Your task to perform on an android device: toggle improve location accuracy Image 0: 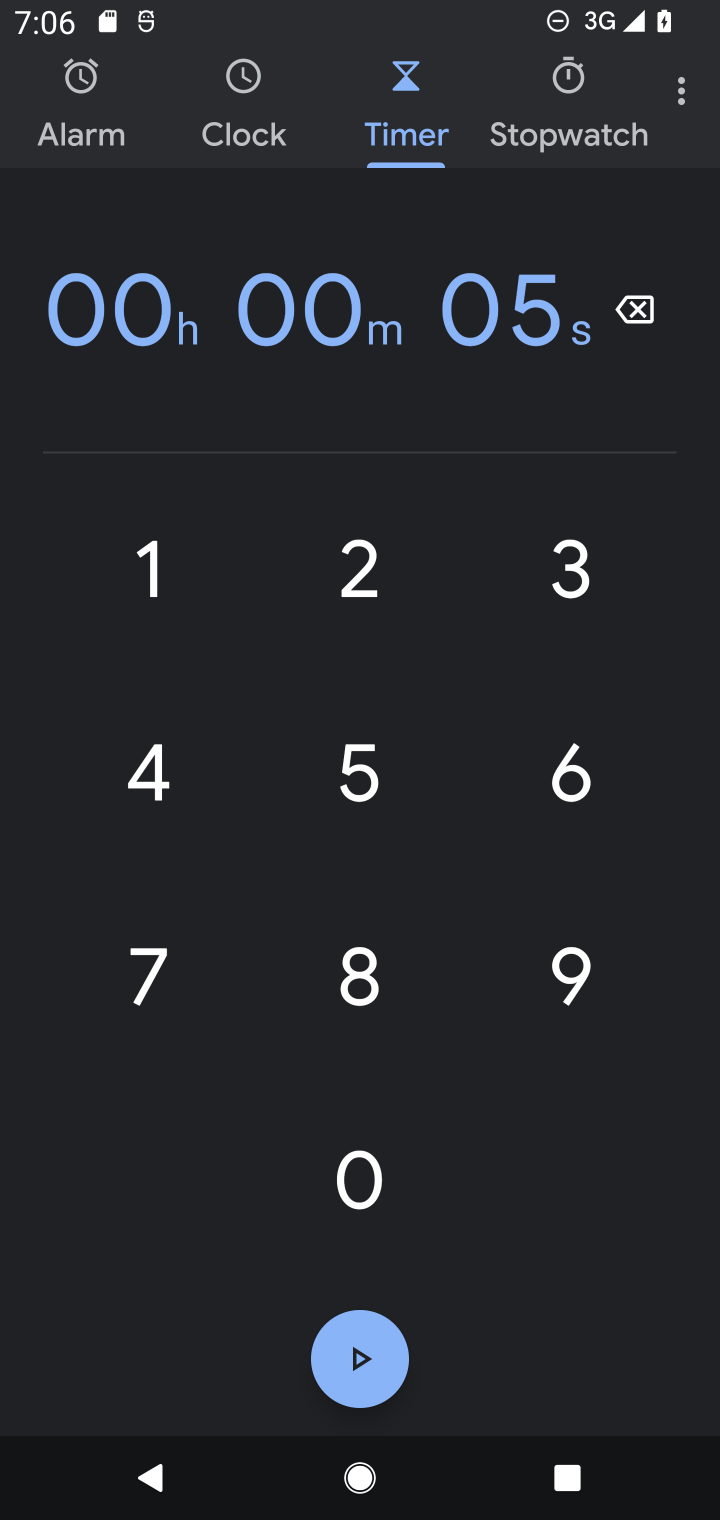
Step 0: press home button
Your task to perform on an android device: toggle improve location accuracy Image 1: 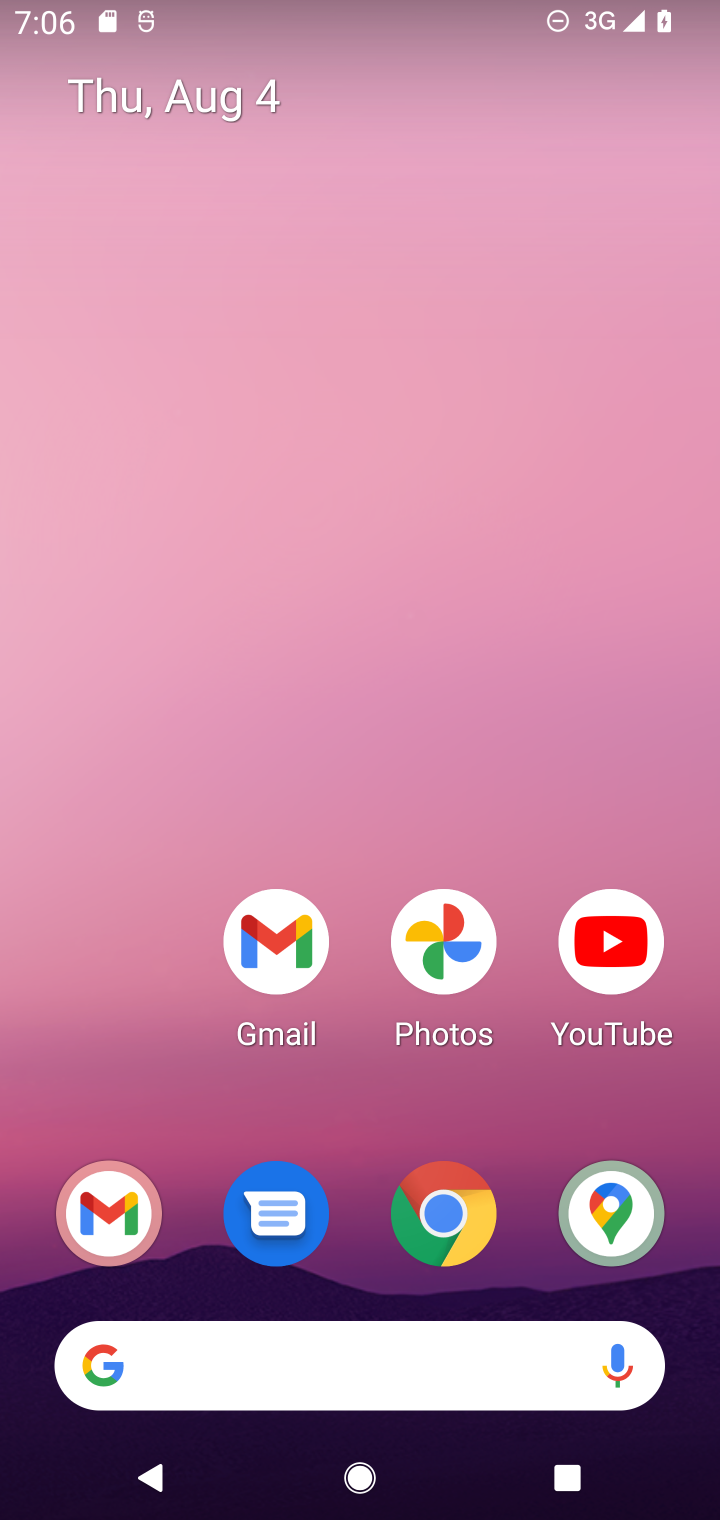
Step 1: drag from (158, 1083) to (213, 461)
Your task to perform on an android device: toggle improve location accuracy Image 2: 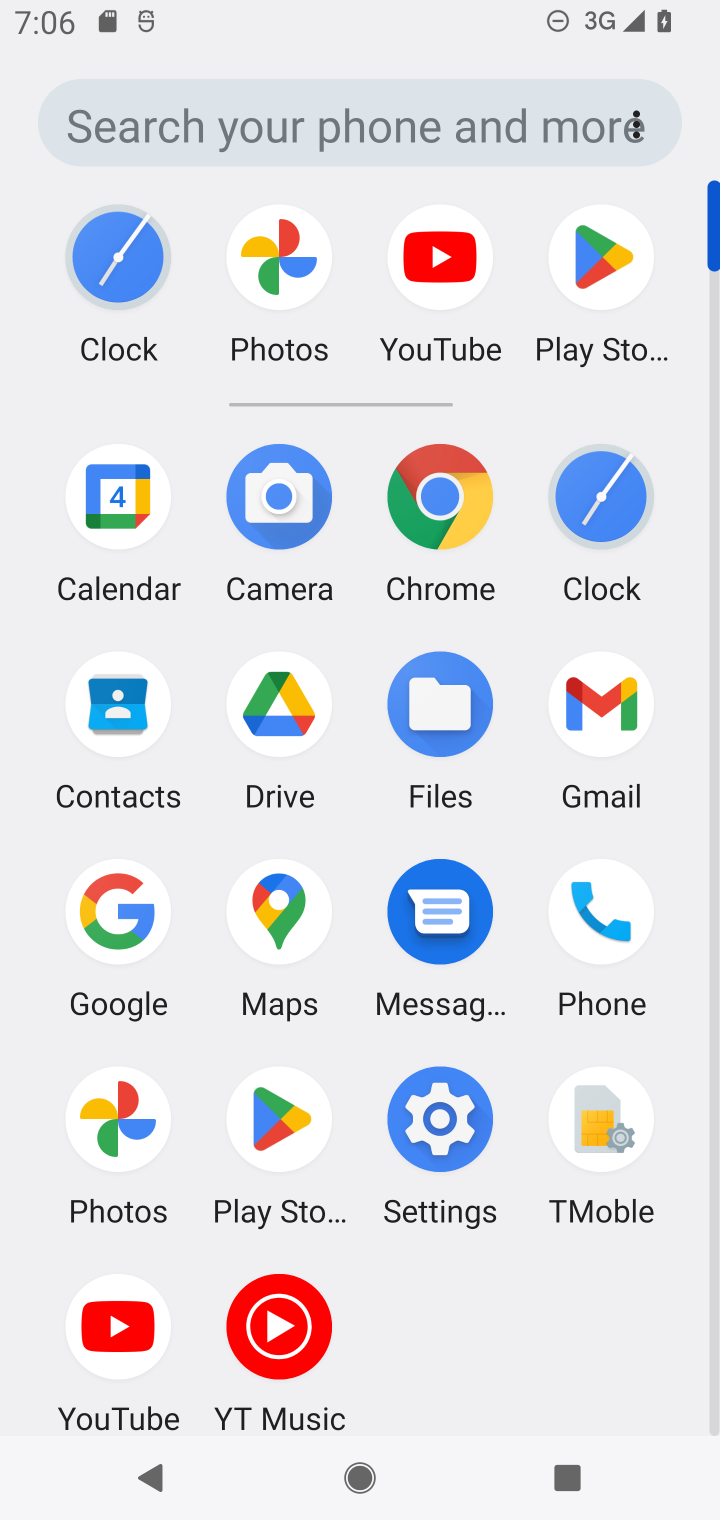
Step 2: click (439, 1147)
Your task to perform on an android device: toggle improve location accuracy Image 3: 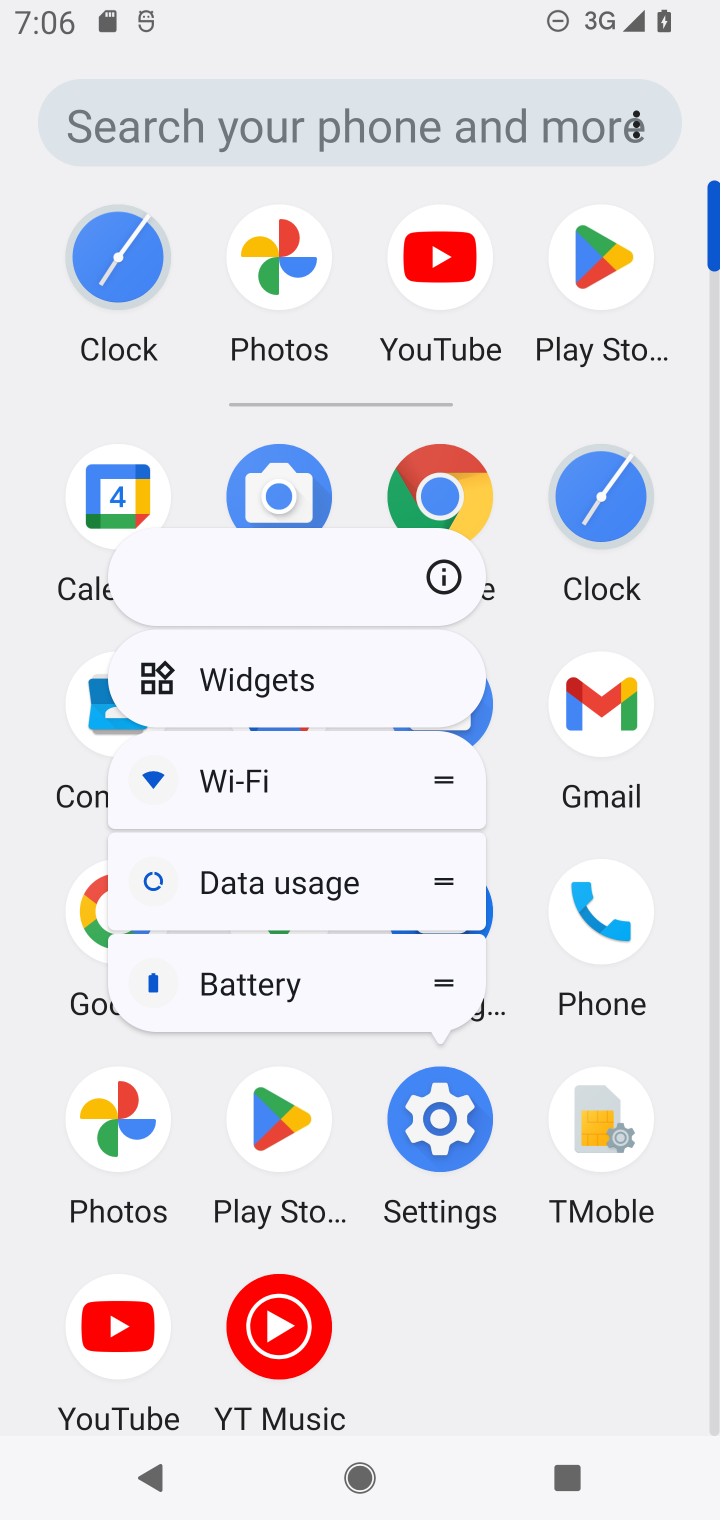
Step 3: click (462, 1114)
Your task to perform on an android device: toggle improve location accuracy Image 4: 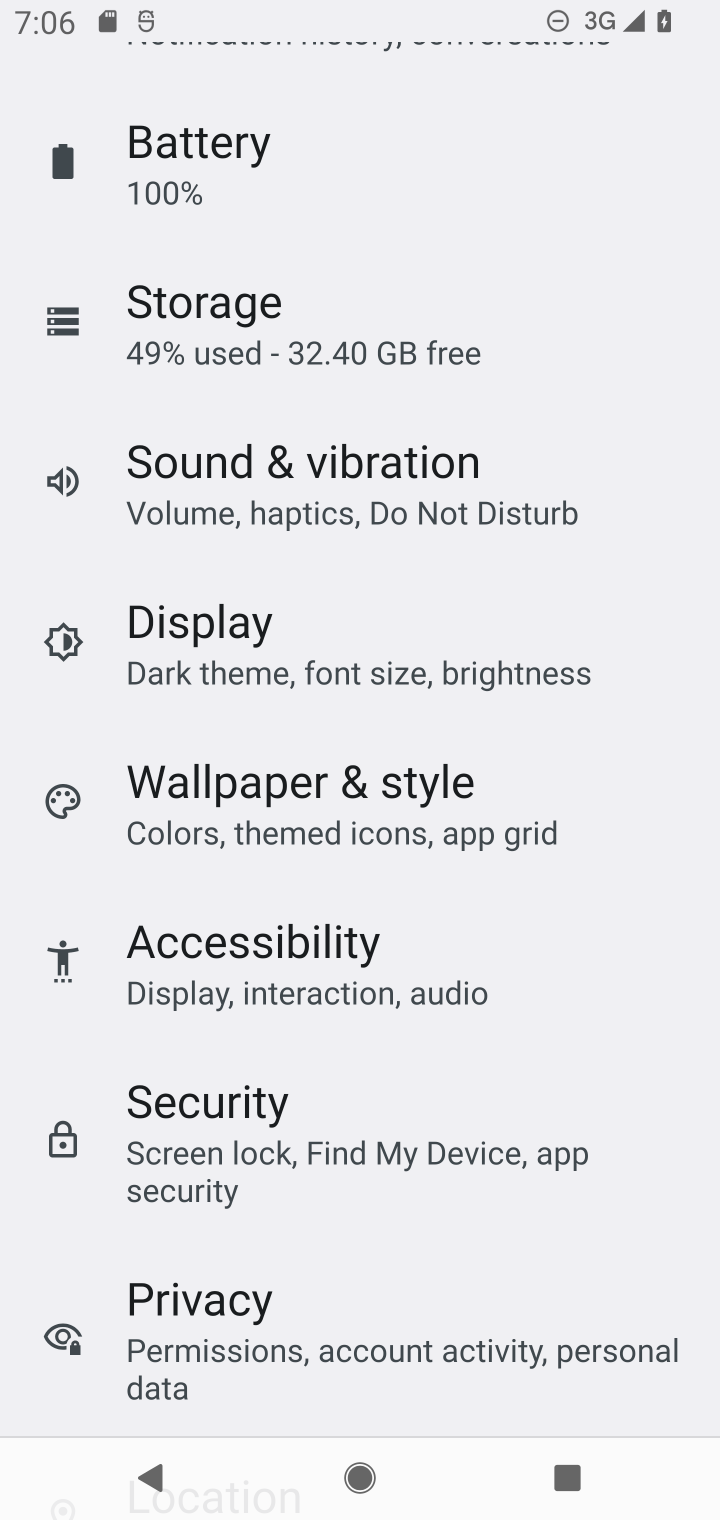
Step 4: drag from (620, 1224) to (623, 828)
Your task to perform on an android device: toggle improve location accuracy Image 5: 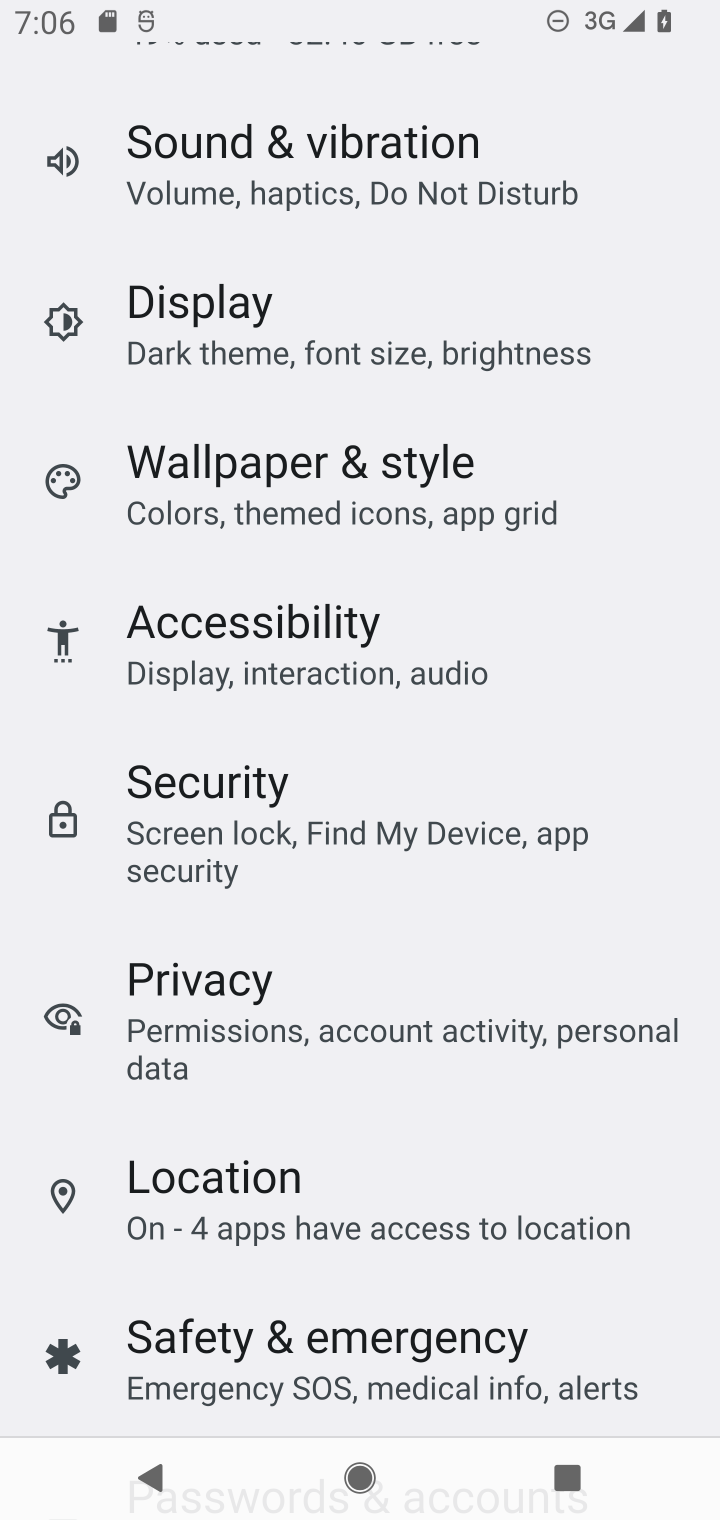
Step 5: drag from (607, 1306) to (604, 900)
Your task to perform on an android device: toggle improve location accuracy Image 6: 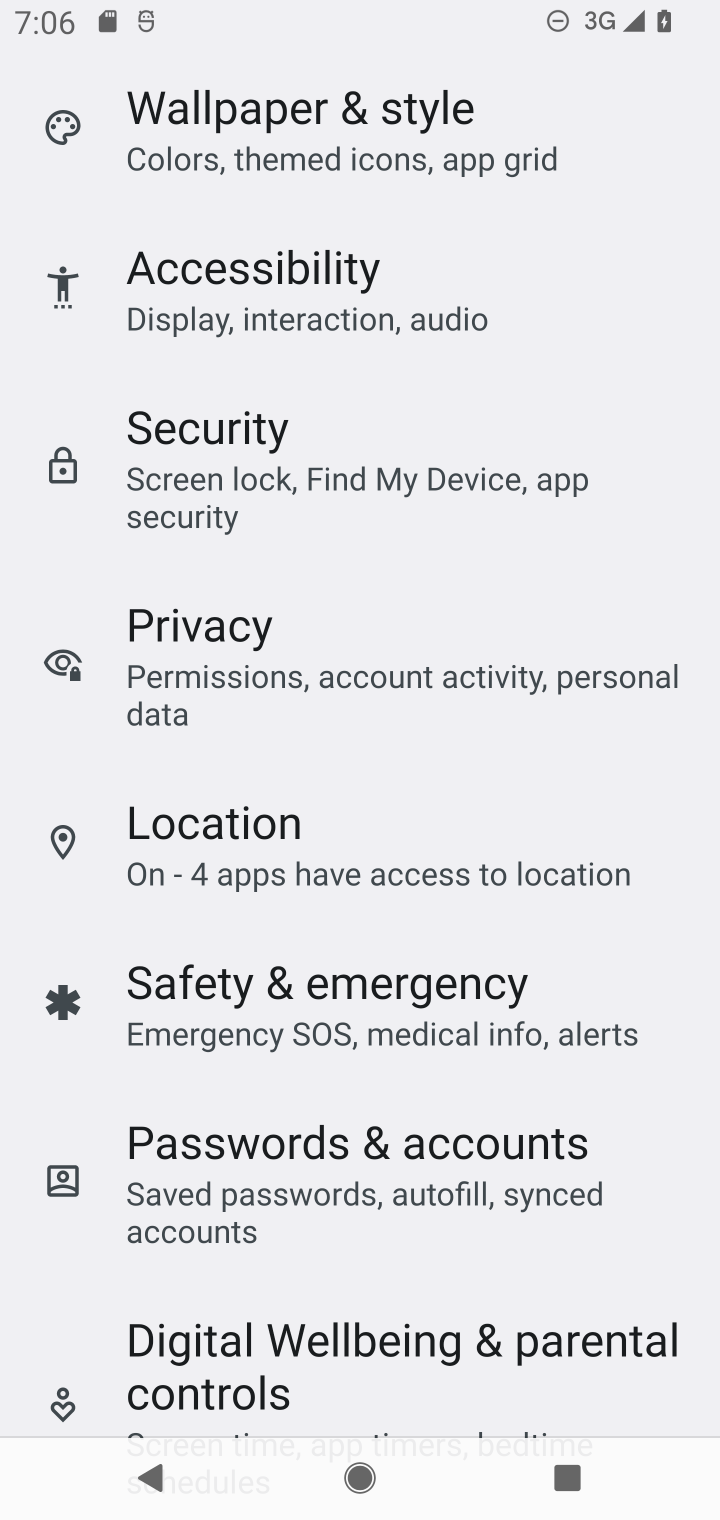
Step 6: drag from (617, 1225) to (622, 917)
Your task to perform on an android device: toggle improve location accuracy Image 7: 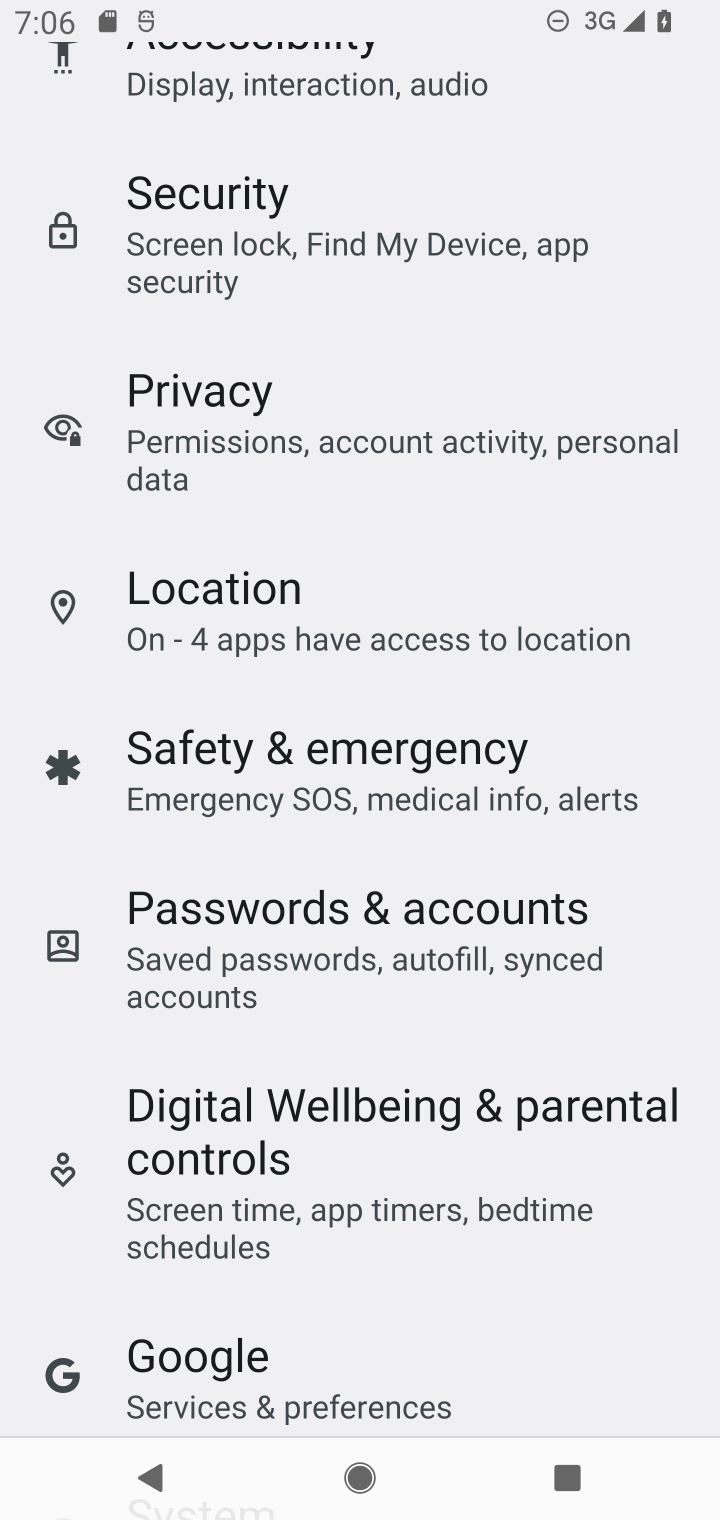
Step 7: drag from (580, 1311) to (580, 961)
Your task to perform on an android device: toggle improve location accuracy Image 8: 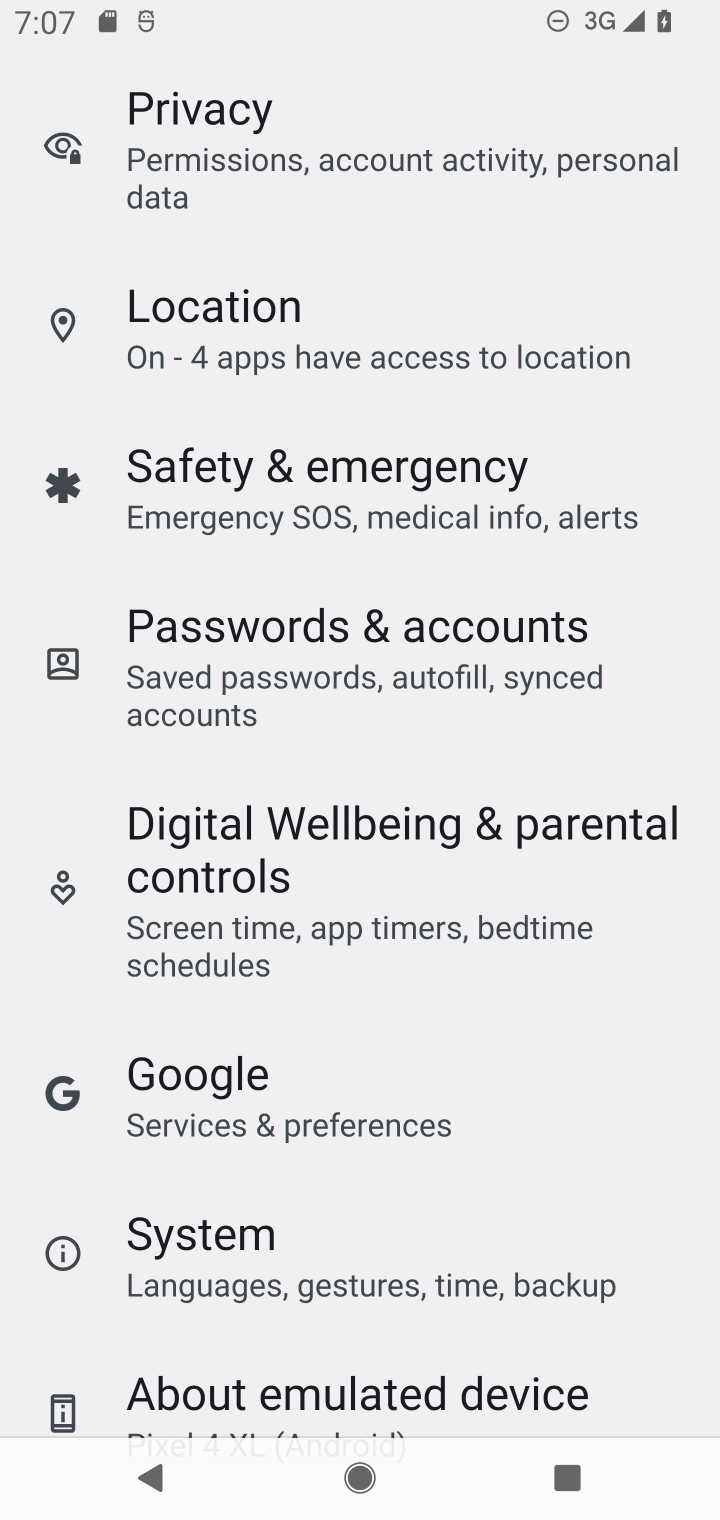
Step 8: drag from (624, 1195) to (628, 877)
Your task to perform on an android device: toggle improve location accuracy Image 9: 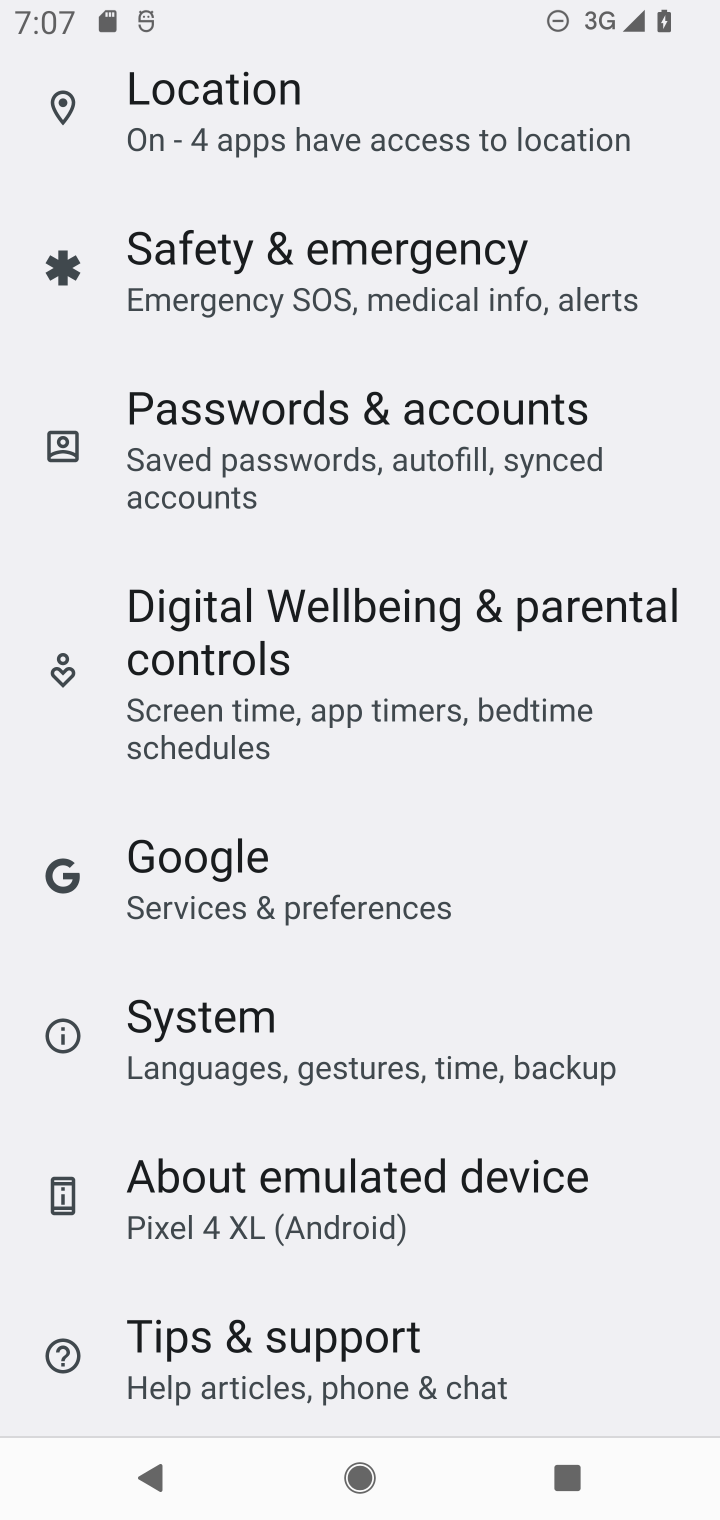
Step 9: drag from (580, 1297) to (603, 896)
Your task to perform on an android device: toggle improve location accuracy Image 10: 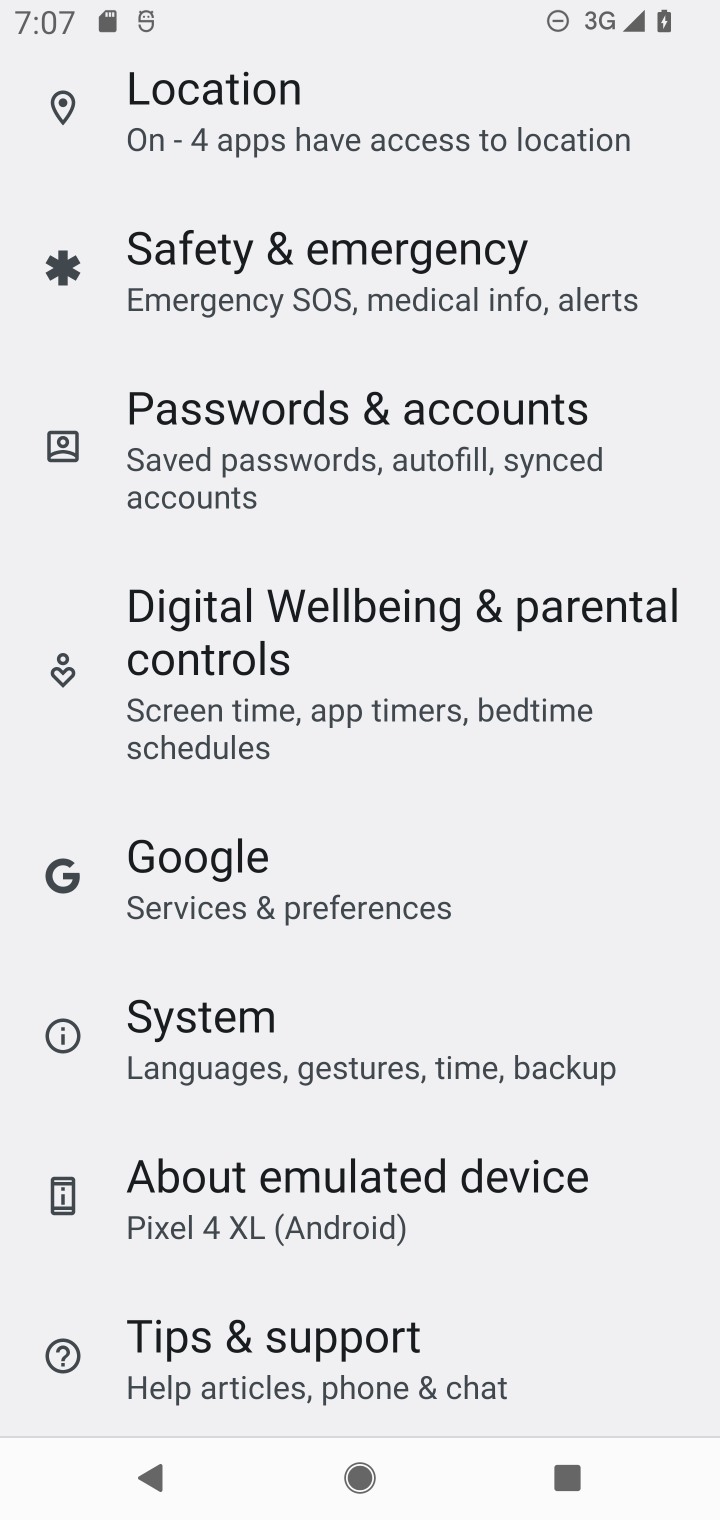
Step 10: drag from (646, 649) to (645, 1083)
Your task to perform on an android device: toggle improve location accuracy Image 11: 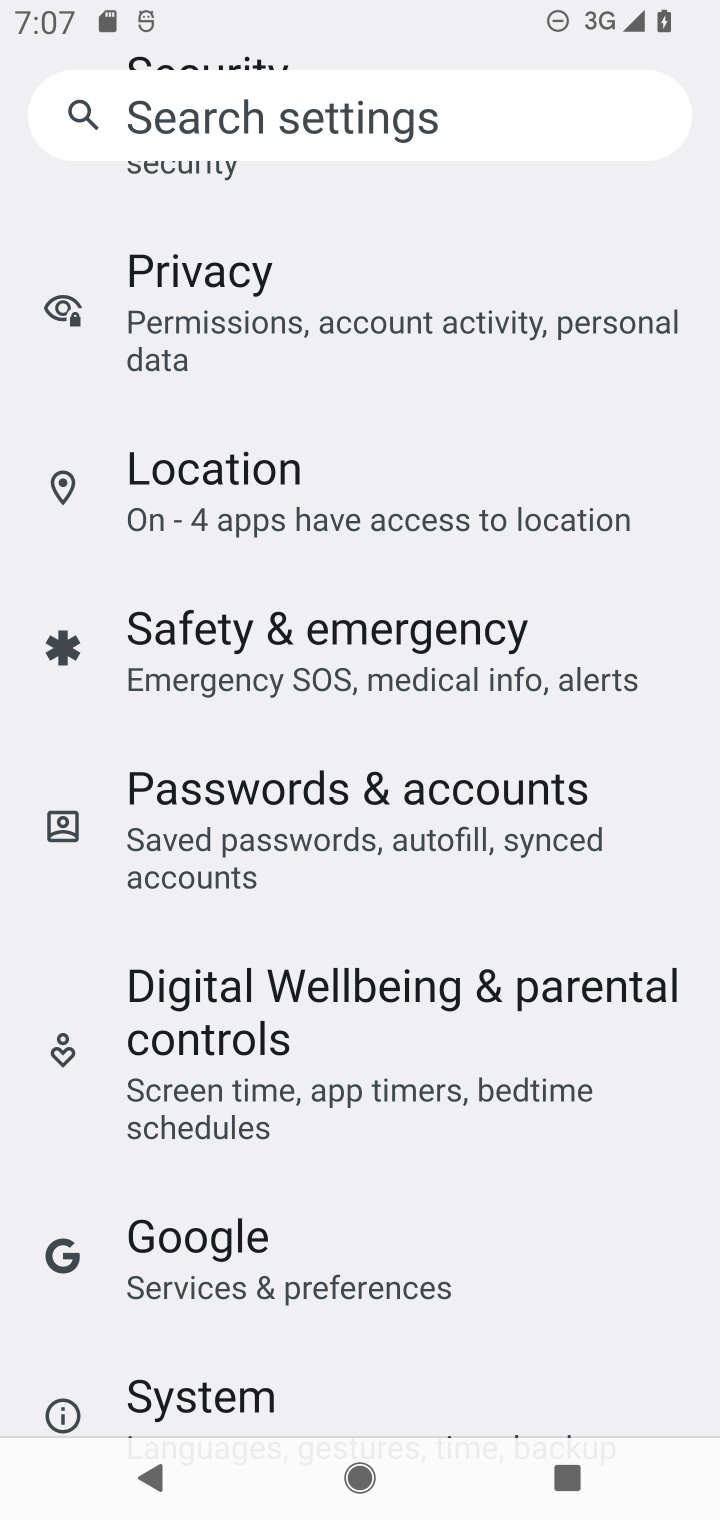
Step 11: drag from (644, 461) to (644, 882)
Your task to perform on an android device: toggle improve location accuracy Image 12: 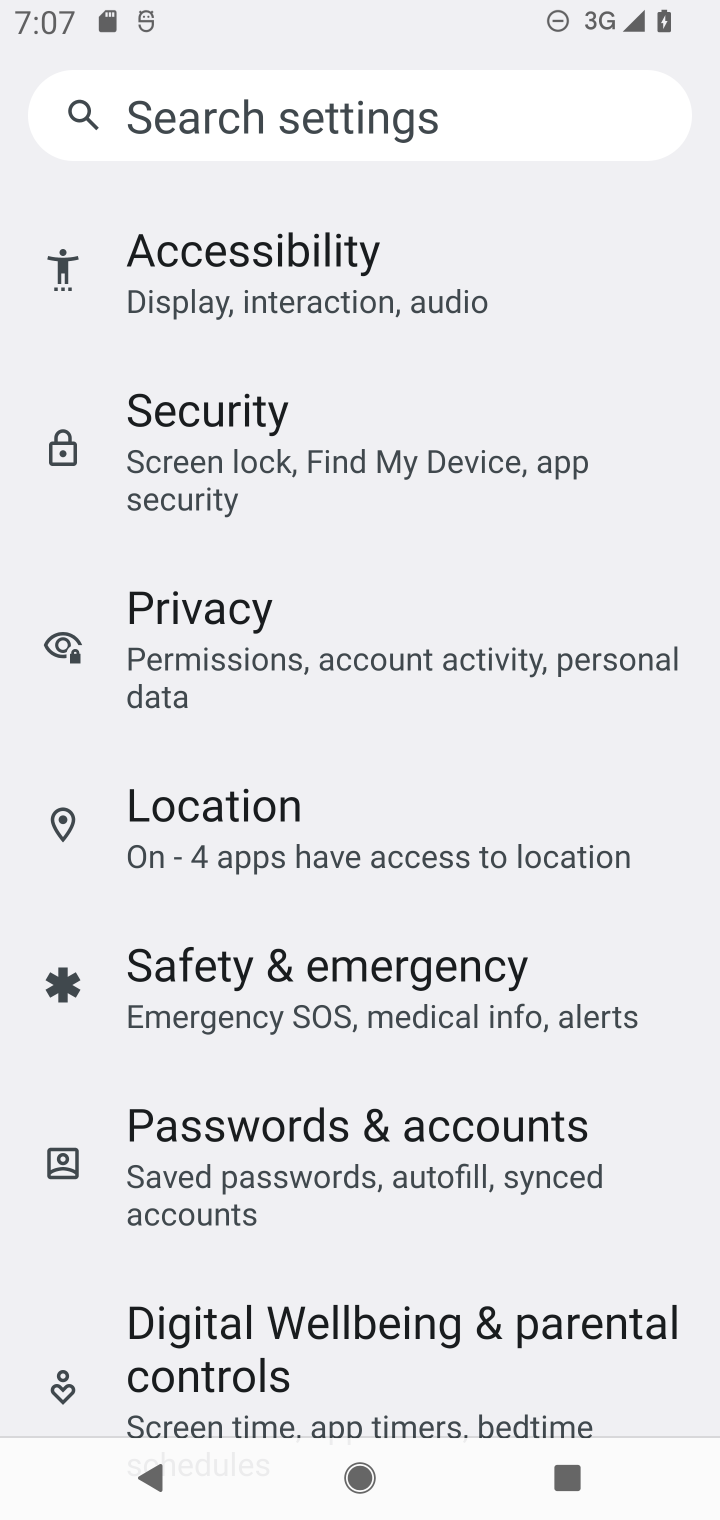
Step 12: drag from (652, 391) to (627, 744)
Your task to perform on an android device: toggle improve location accuracy Image 13: 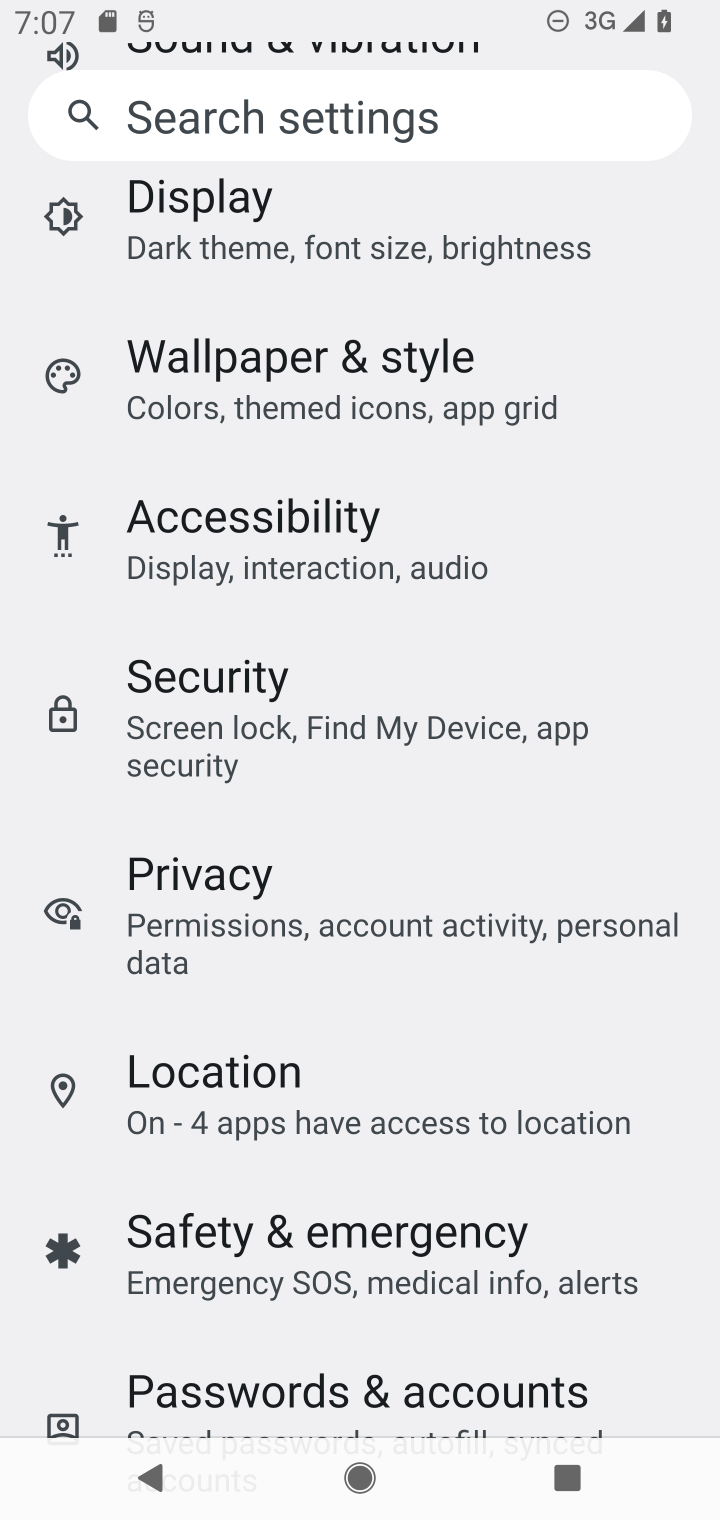
Step 13: drag from (610, 370) to (610, 729)
Your task to perform on an android device: toggle improve location accuracy Image 14: 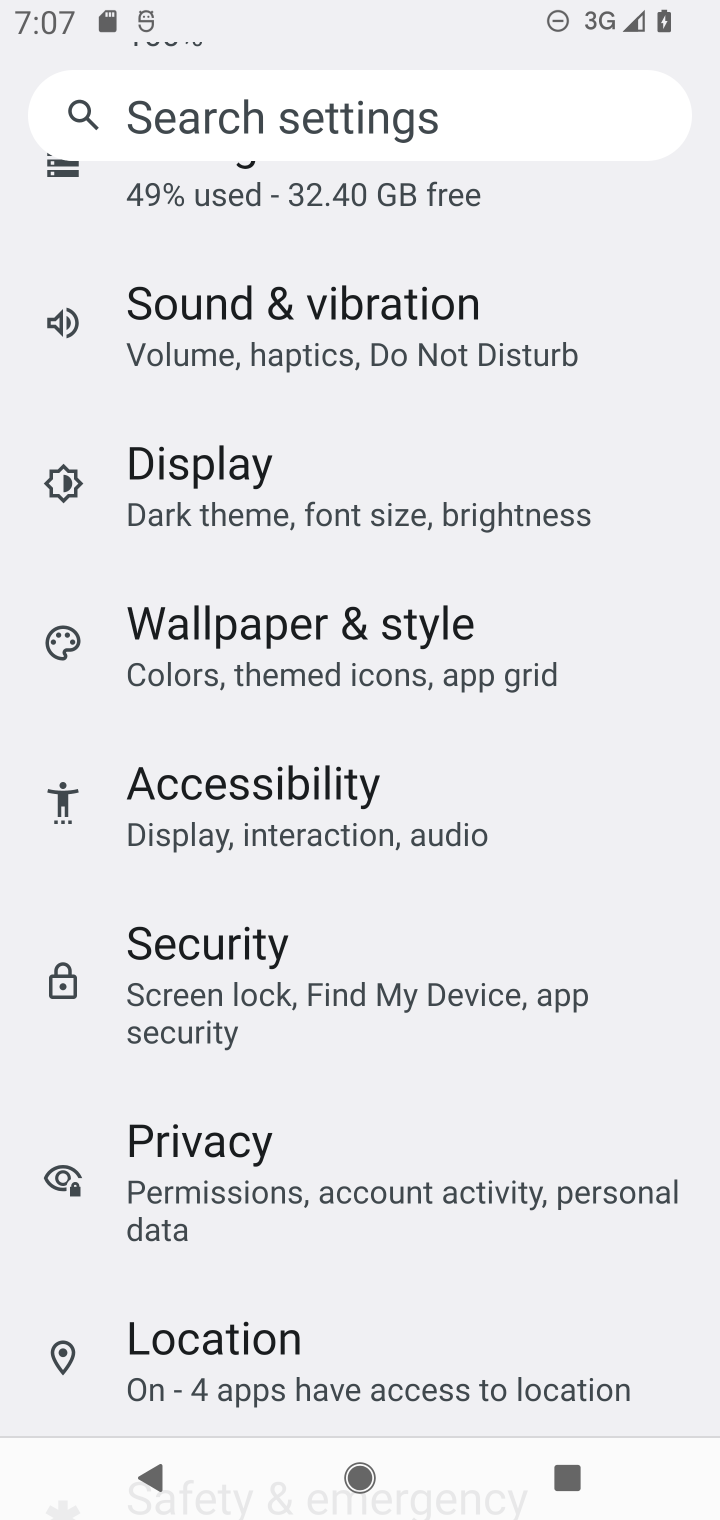
Step 14: drag from (642, 329) to (622, 736)
Your task to perform on an android device: toggle improve location accuracy Image 15: 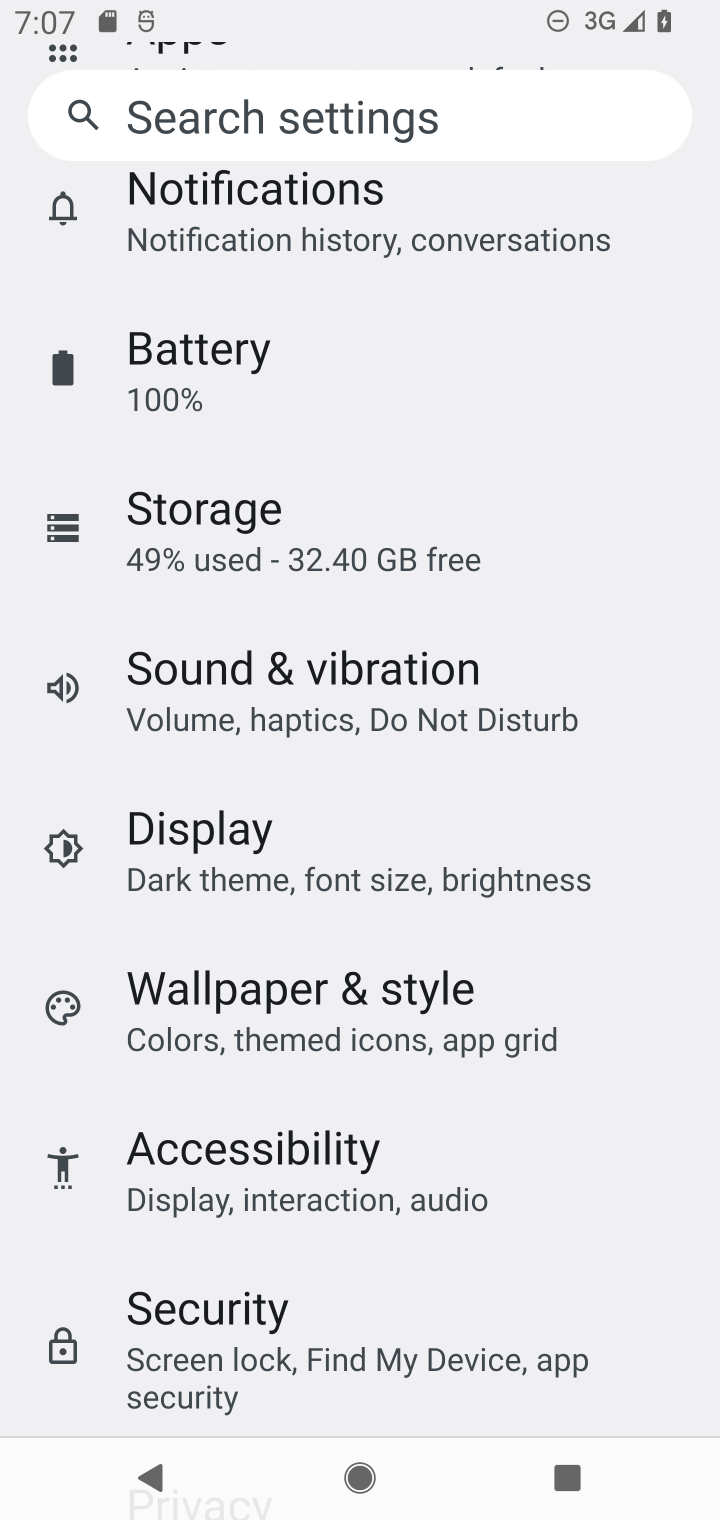
Step 15: drag from (630, 502) to (630, 788)
Your task to perform on an android device: toggle improve location accuracy Image 16: 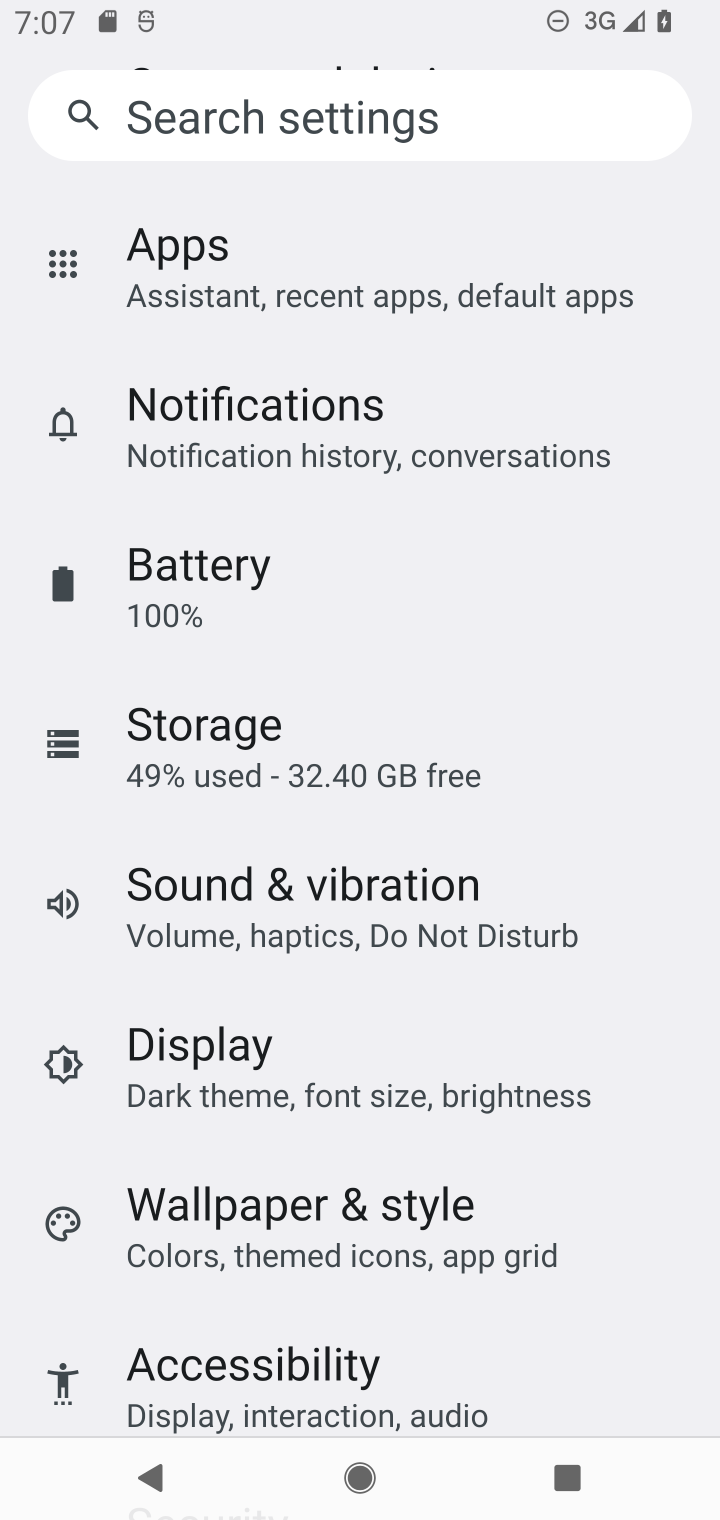
Step 16: drag from (626, 392) to (618, 714)
Your task to perform on an android device: toggle improve location accuracy Image 17: 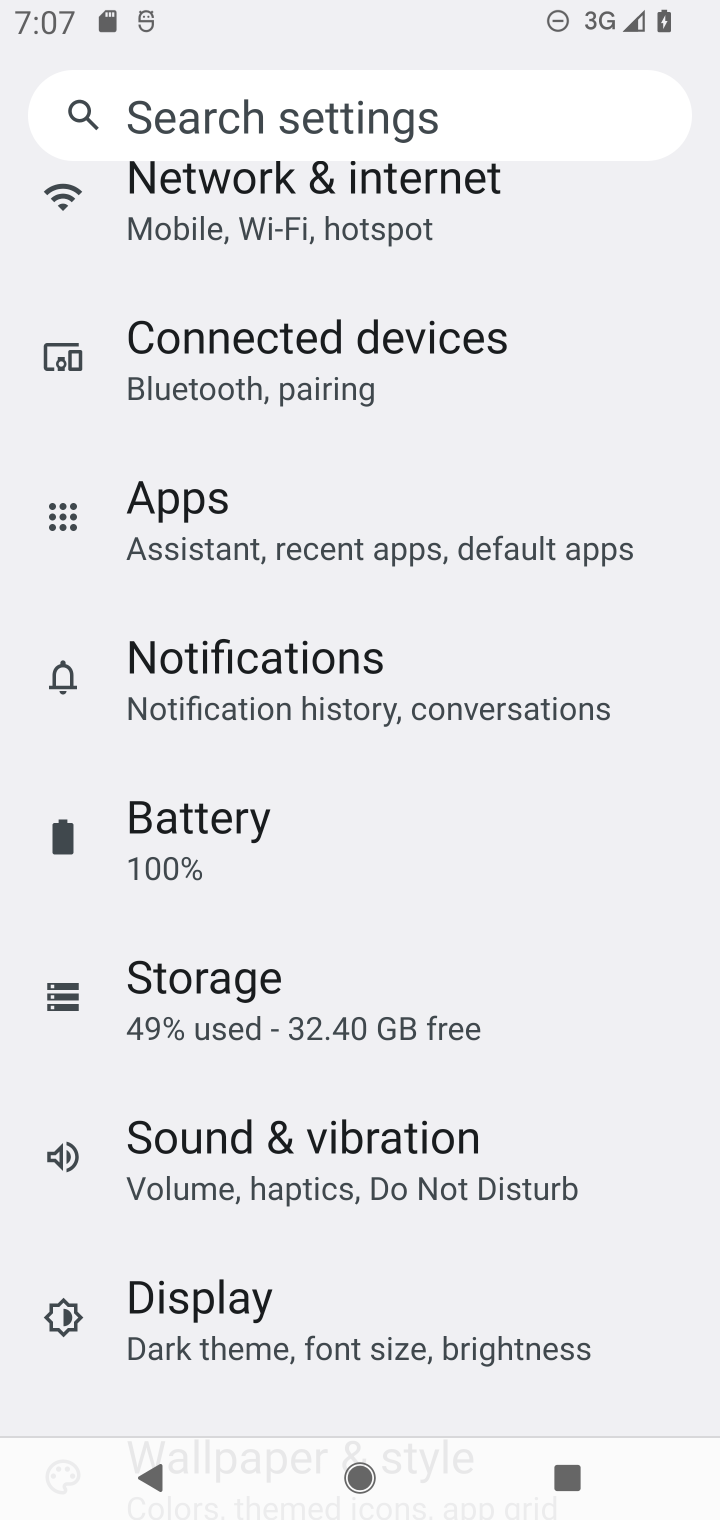
Step 17: drag from (633, 357) to (611, 698)
Your task to perform on an android device: toggle improve location accuracy Image 18: 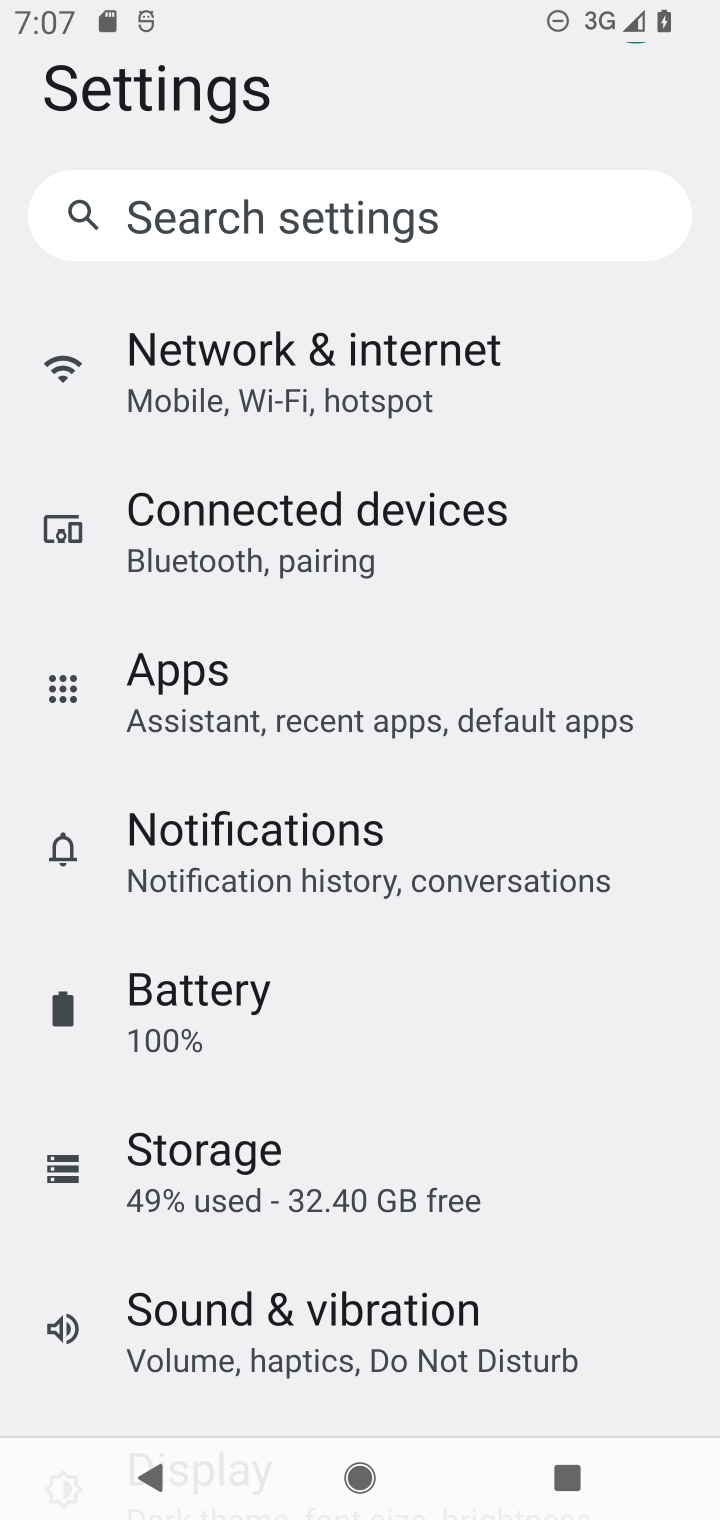
Step 18: drag from (601, 428) to (594, 728)
Your task to perform on an android device: toggle improve location accuracy Image 19: 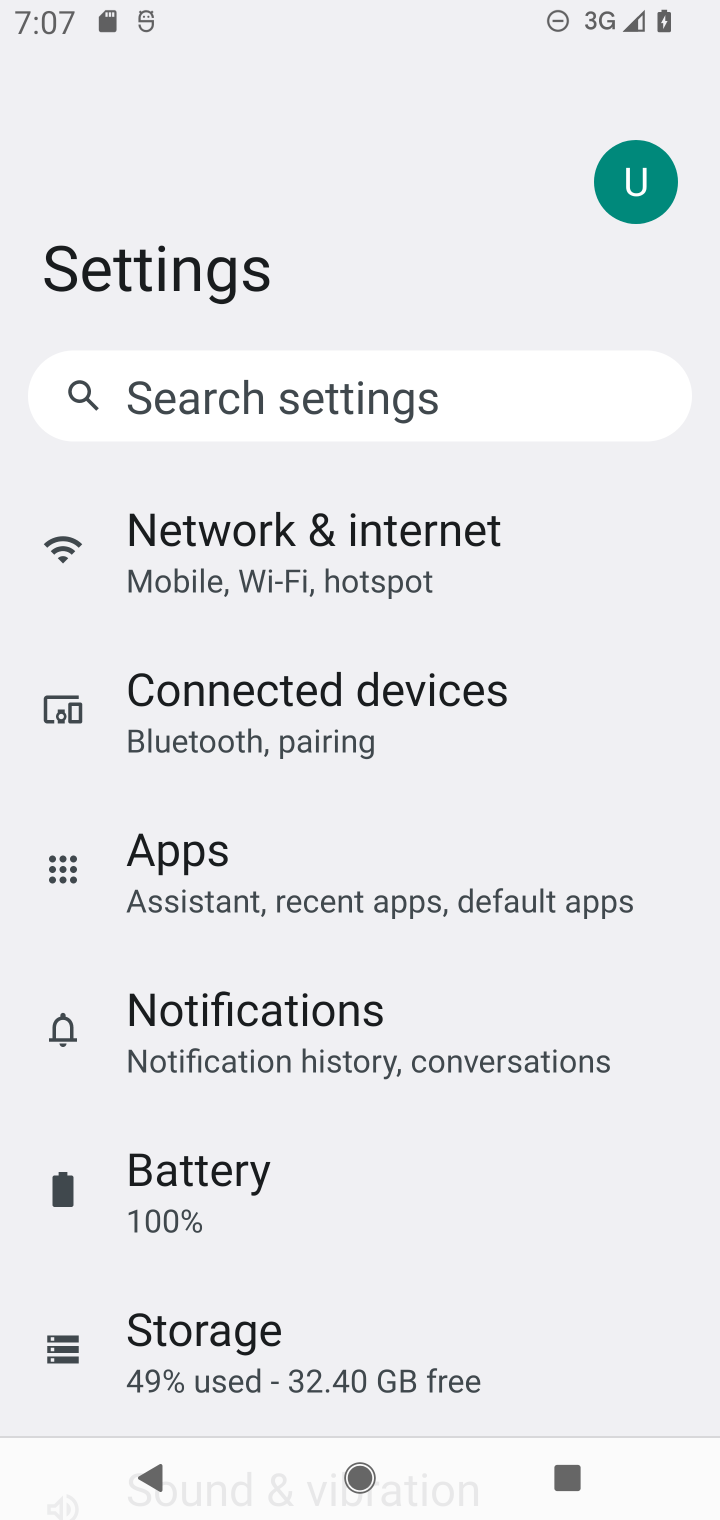
Step 19: drag from (564, 1028) to (584, 754)
Your task to perform on an android device: toggle improve location accuracy Image 20: 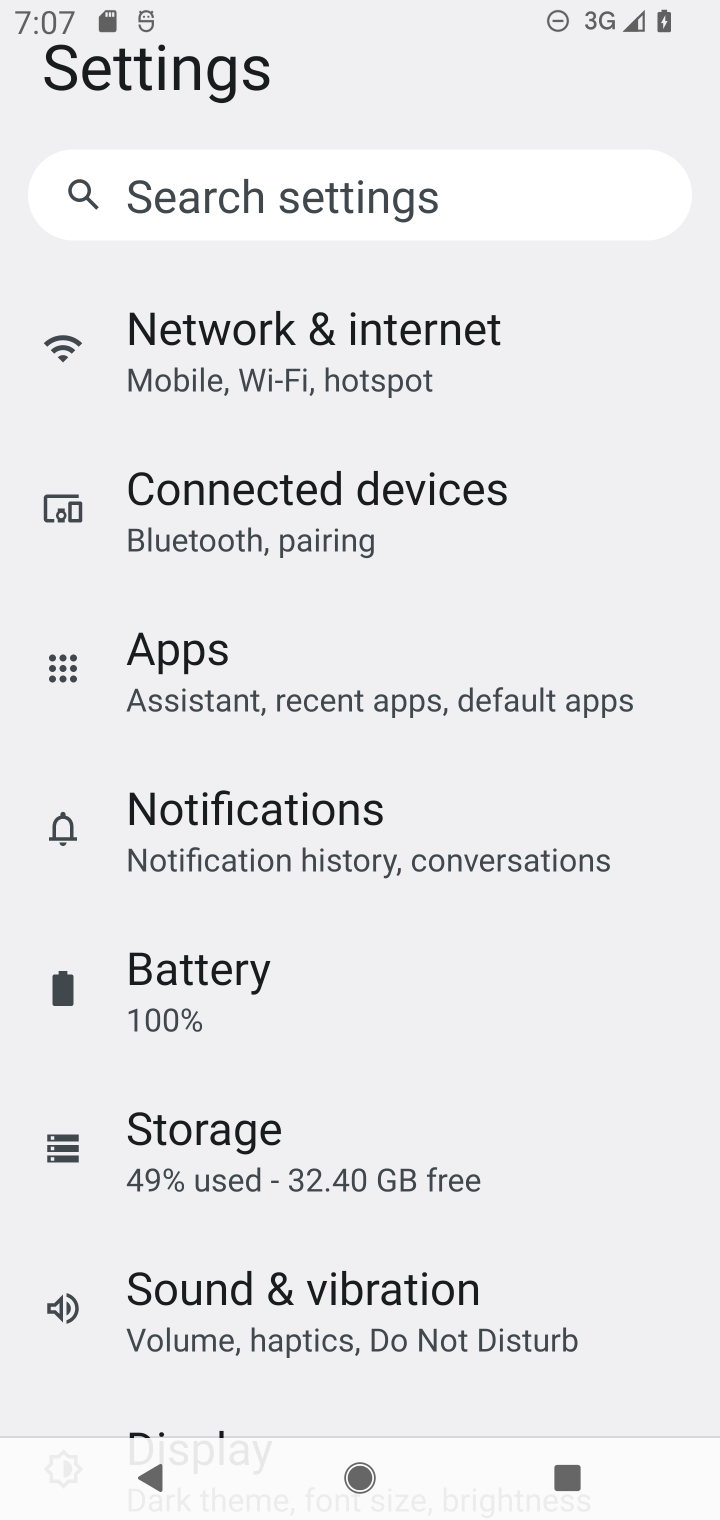
Step 20: drag from (591, 1107) to (588, 829)
Your task to perform on an android device: toggle improve location accuracy Image 21: 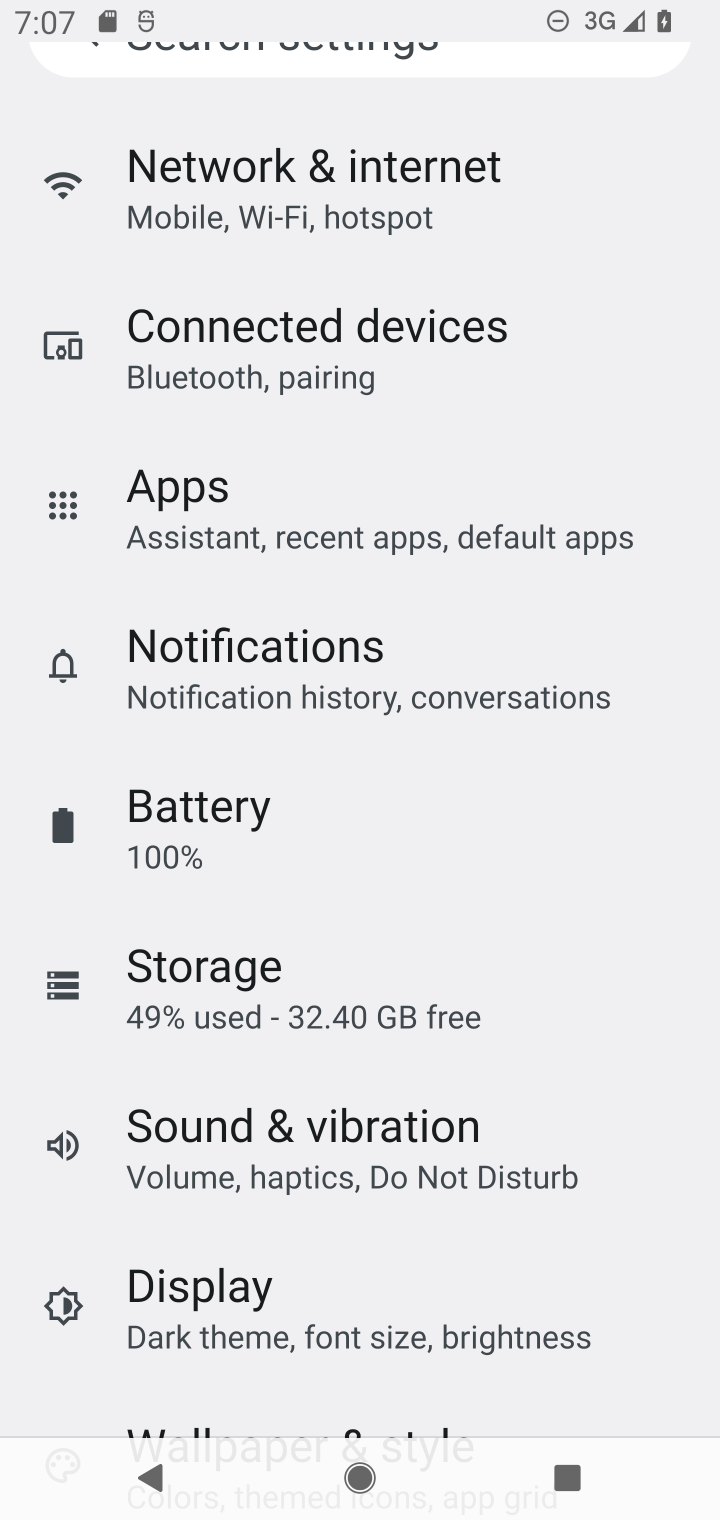
Step 21: drag from (579, 1241) to (589, 870)
Your task to perform on an android device: toggle improve location accuracy Image 22: 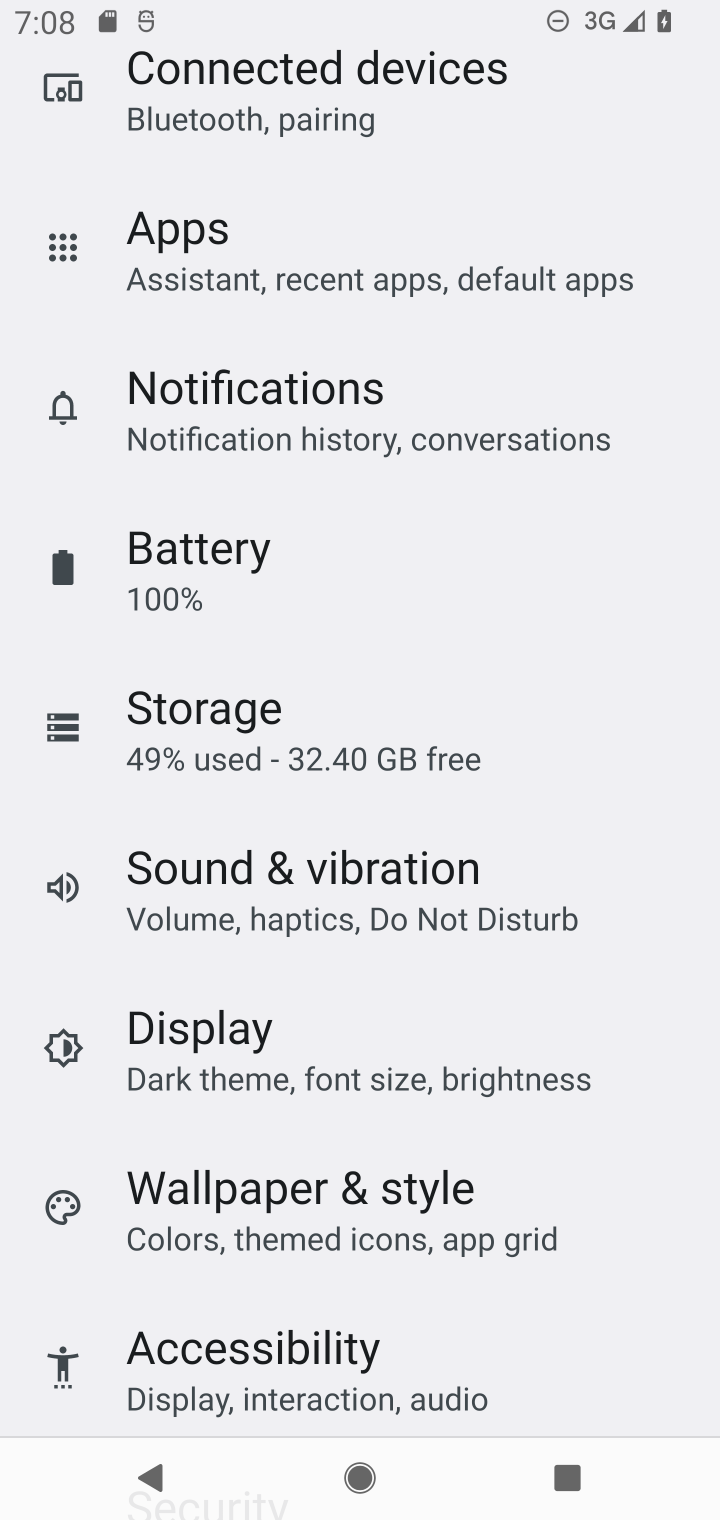
Step 22: drag from (545, 1283) to (555, 950)
Your task to perform on an android device: toggle improve location accuracy Image 23: 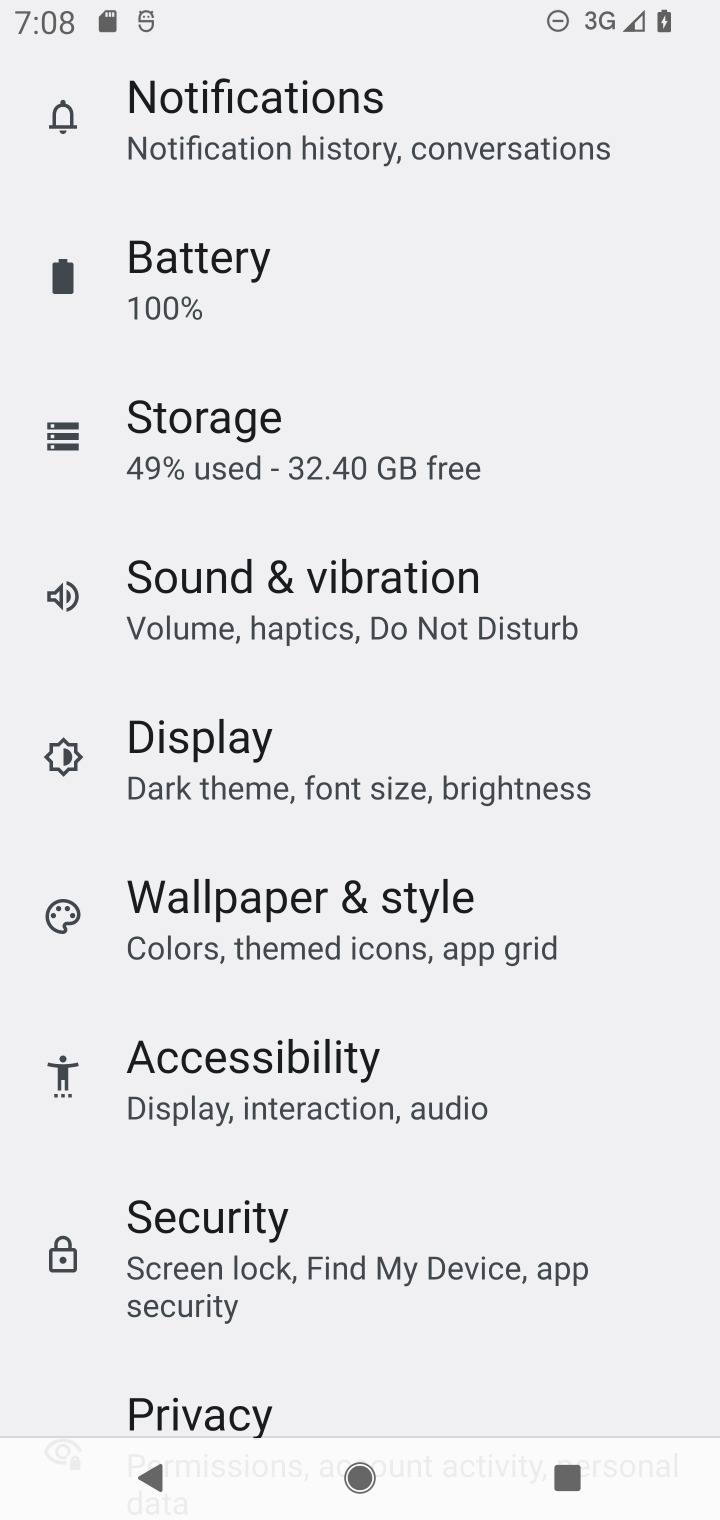
Step 23: drag from (600, 1320) to (594, 991)
Your task to perform on an android device: toggle improve location accuracy Image 24: 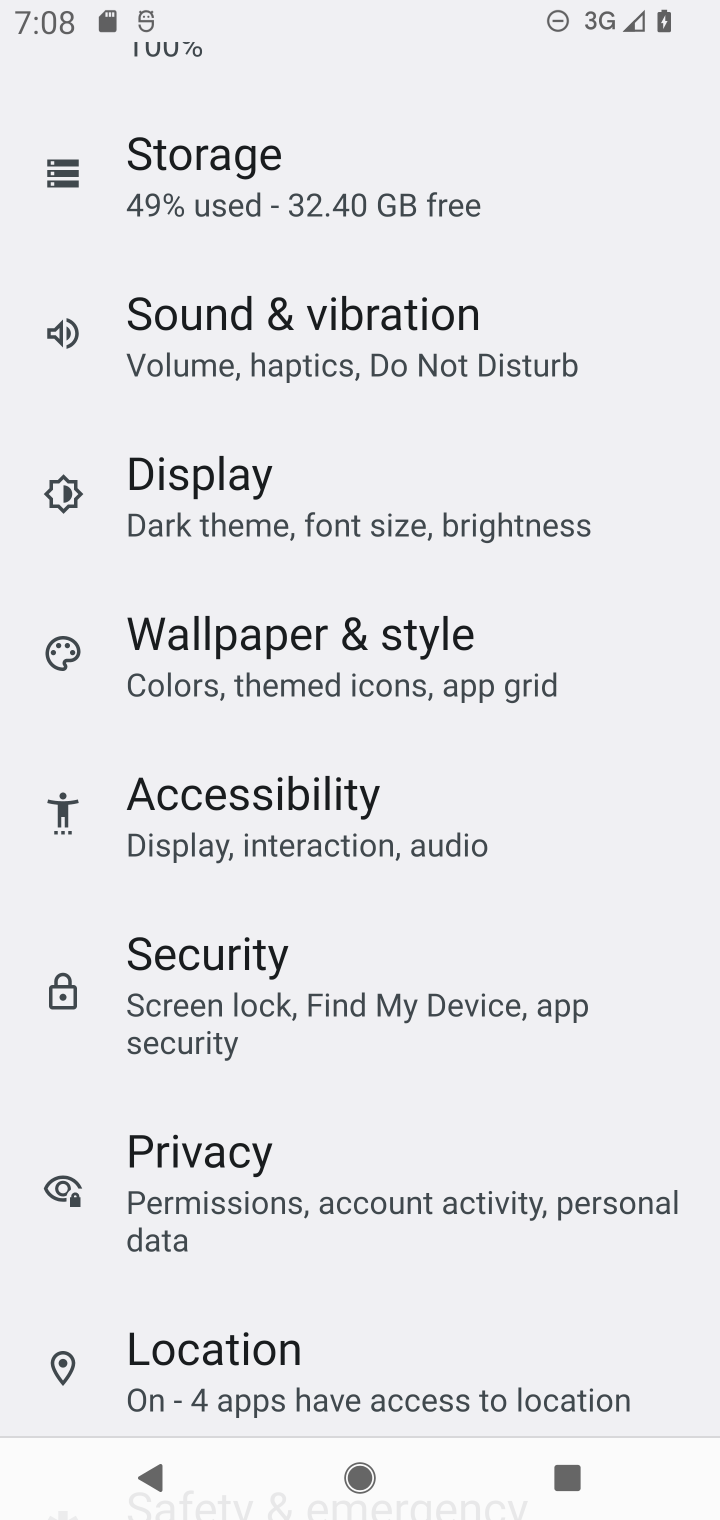
Step 24: drag from (502, 1276) to (502, 948)
Your task to perform on an android device: toggle improve location accuracy Image 25: 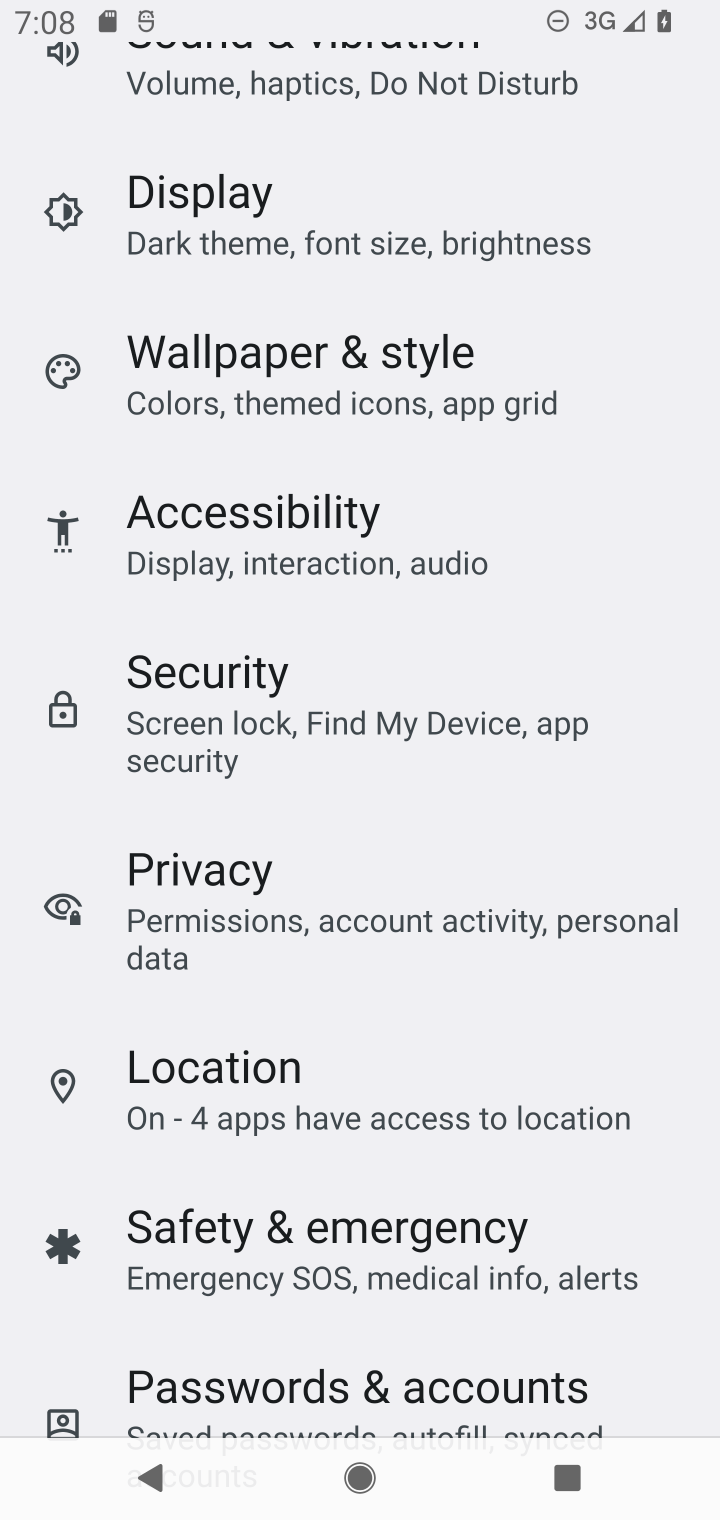
Step 25: drag from (603, 573) to (550, 889)
Your task to perform on an android device: toggle improve location accuracy Image 26: 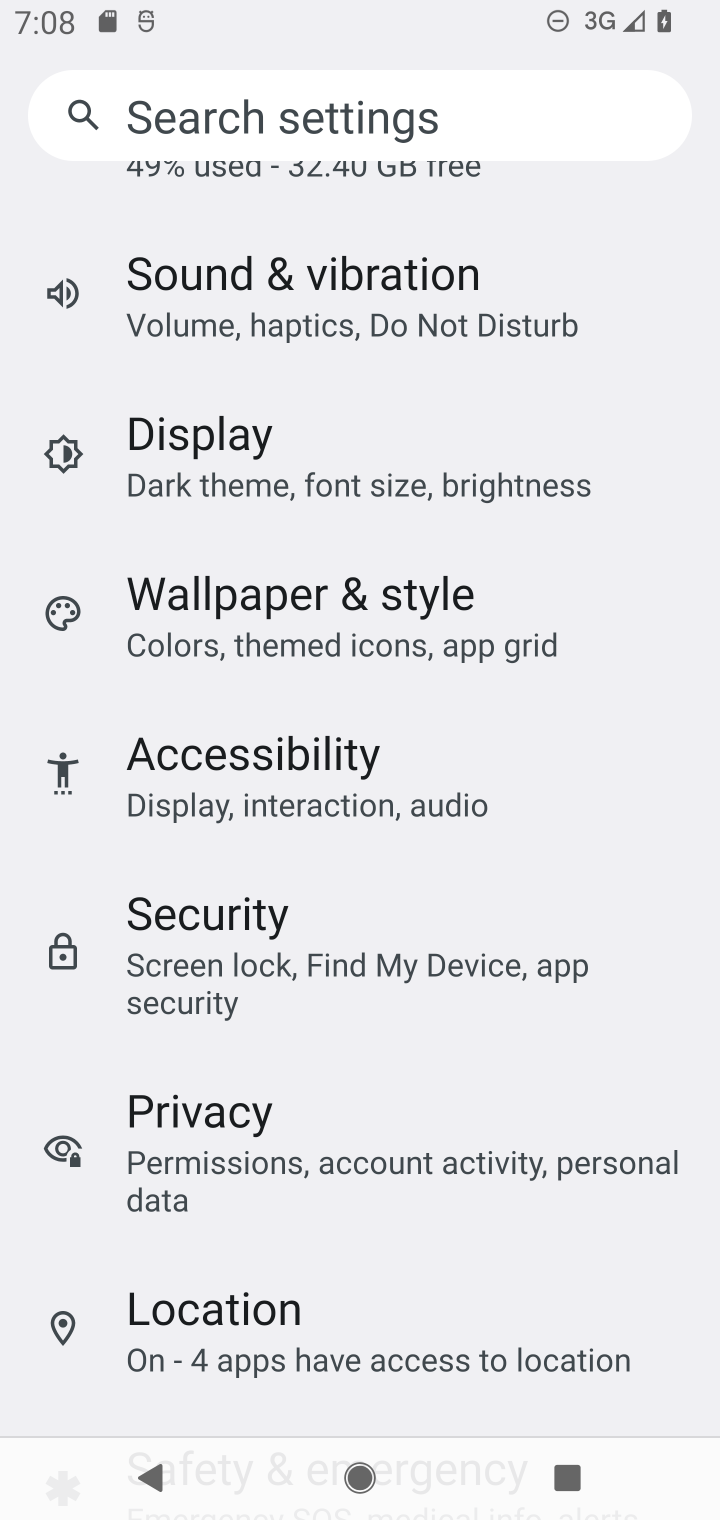
Step 26: drag from (524, 1084) to (543, 785)
Your task to perform on an android device: toggle improve location accuracy Image 27: 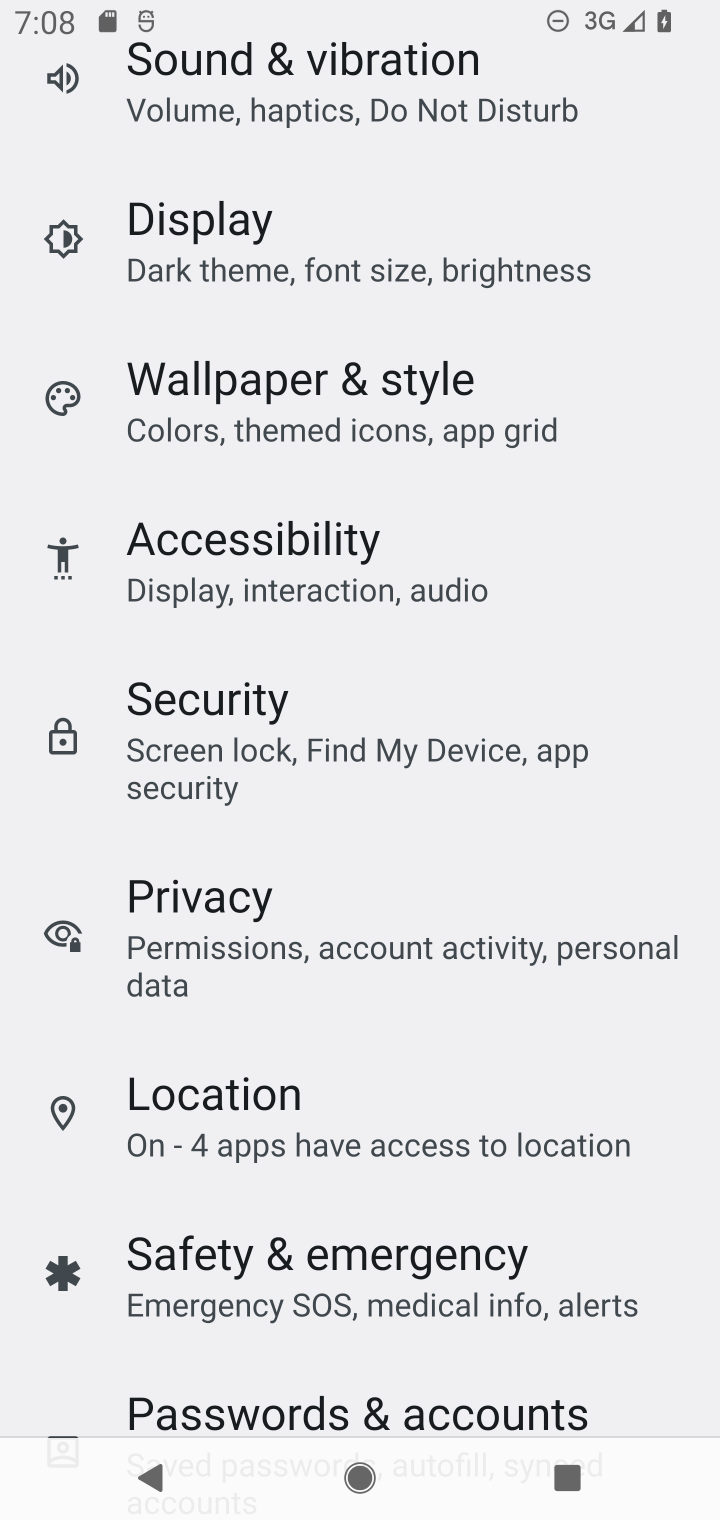
Step 27: drag from (604, 1347) to (596, 916)
Your task to perform on an android device: toggle improve location accuracy Image 28: 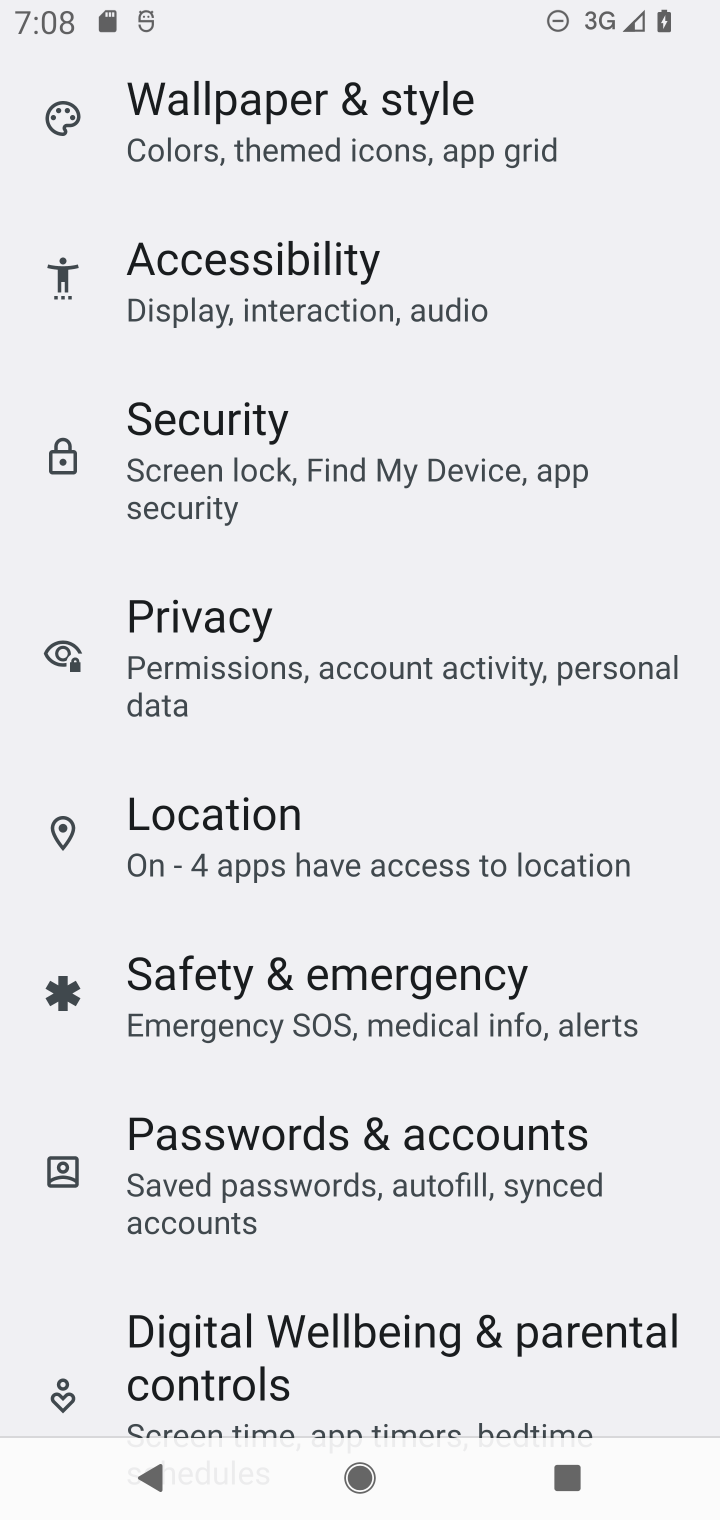
Step 28: drag from (592, 1250) to (478, 862)
Your task to perform on an android device: toggle improve location accuracy Image 29: 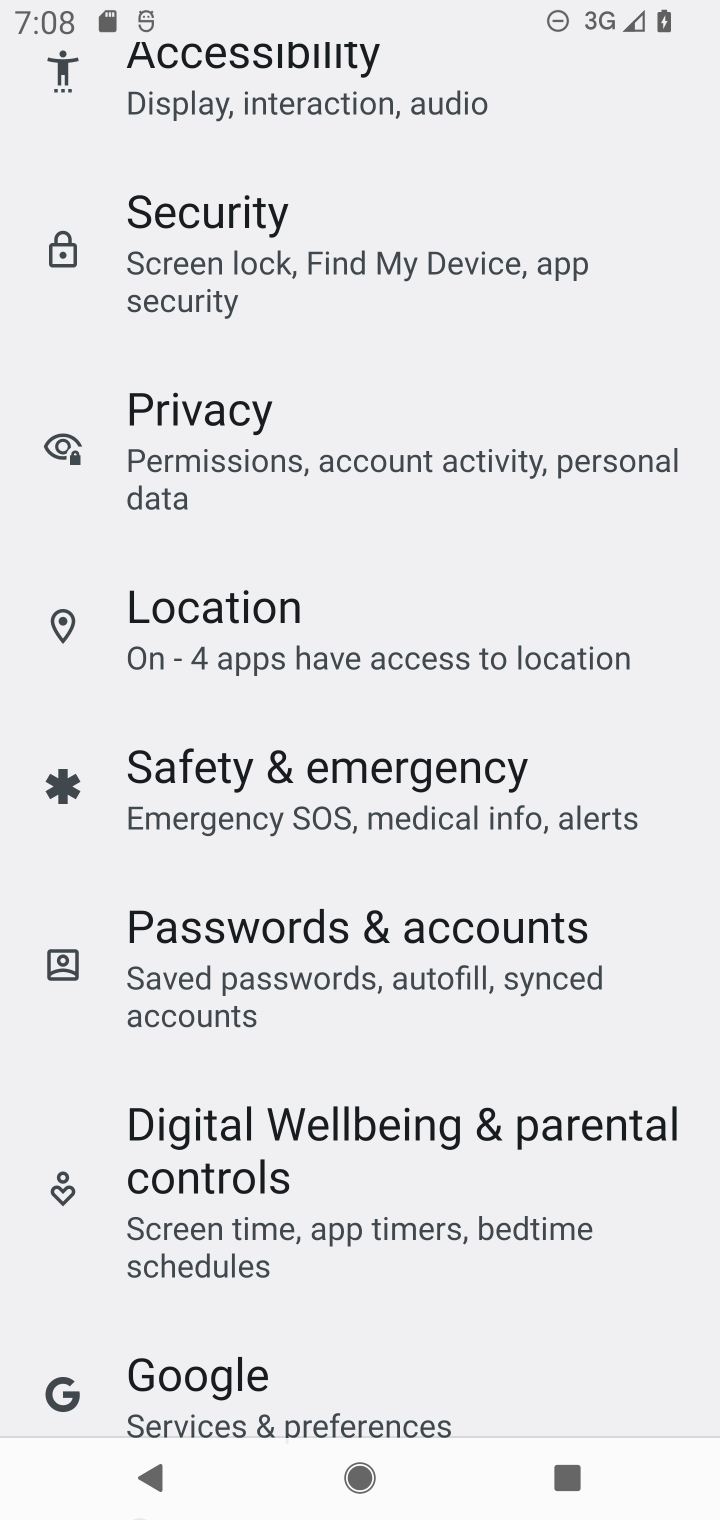
Step 29: drag from (409, 1311) to (399, 817)
Your task to perform on an android device: toggle improve location accuracy Image 30: 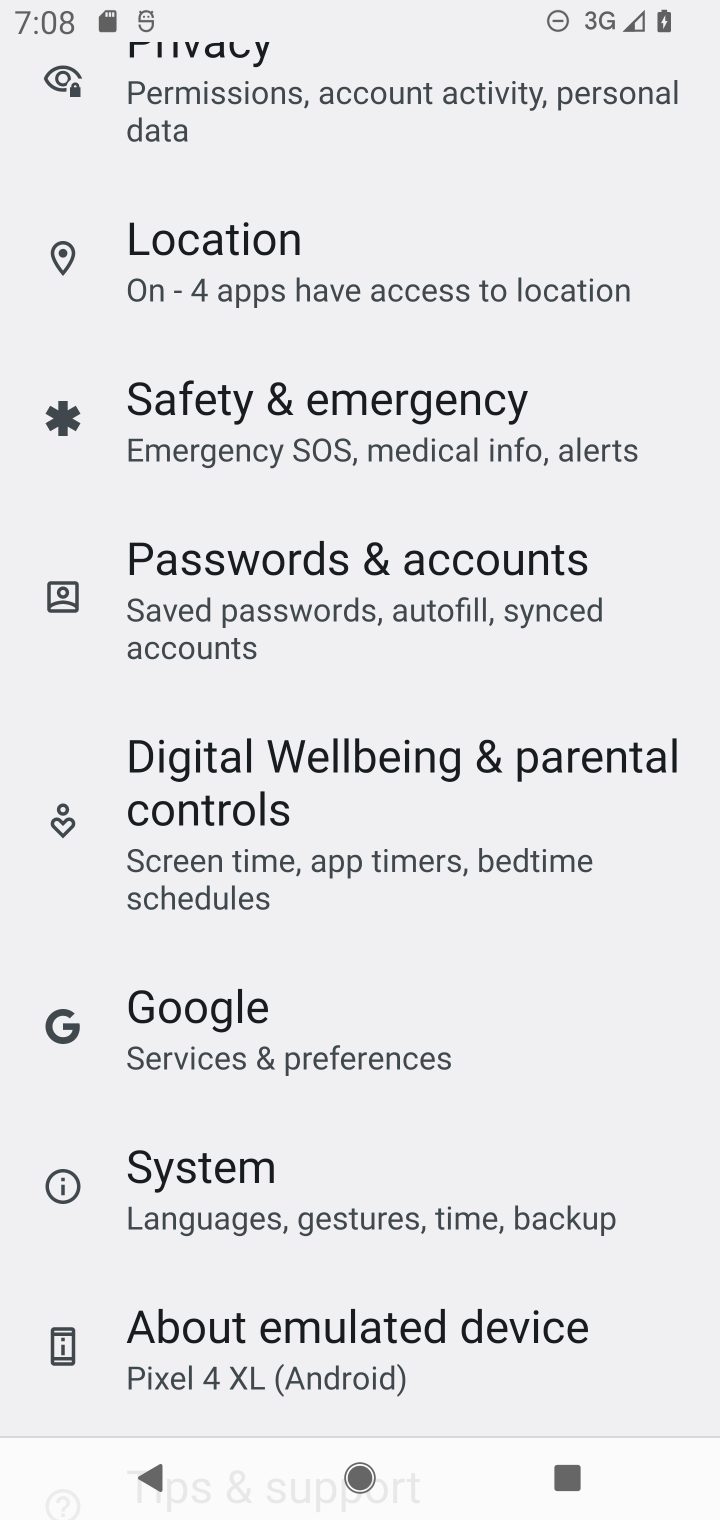
Step 30: click (495, 254)
Your task to perform on an android device: toggle improve location accuracy Image 31: 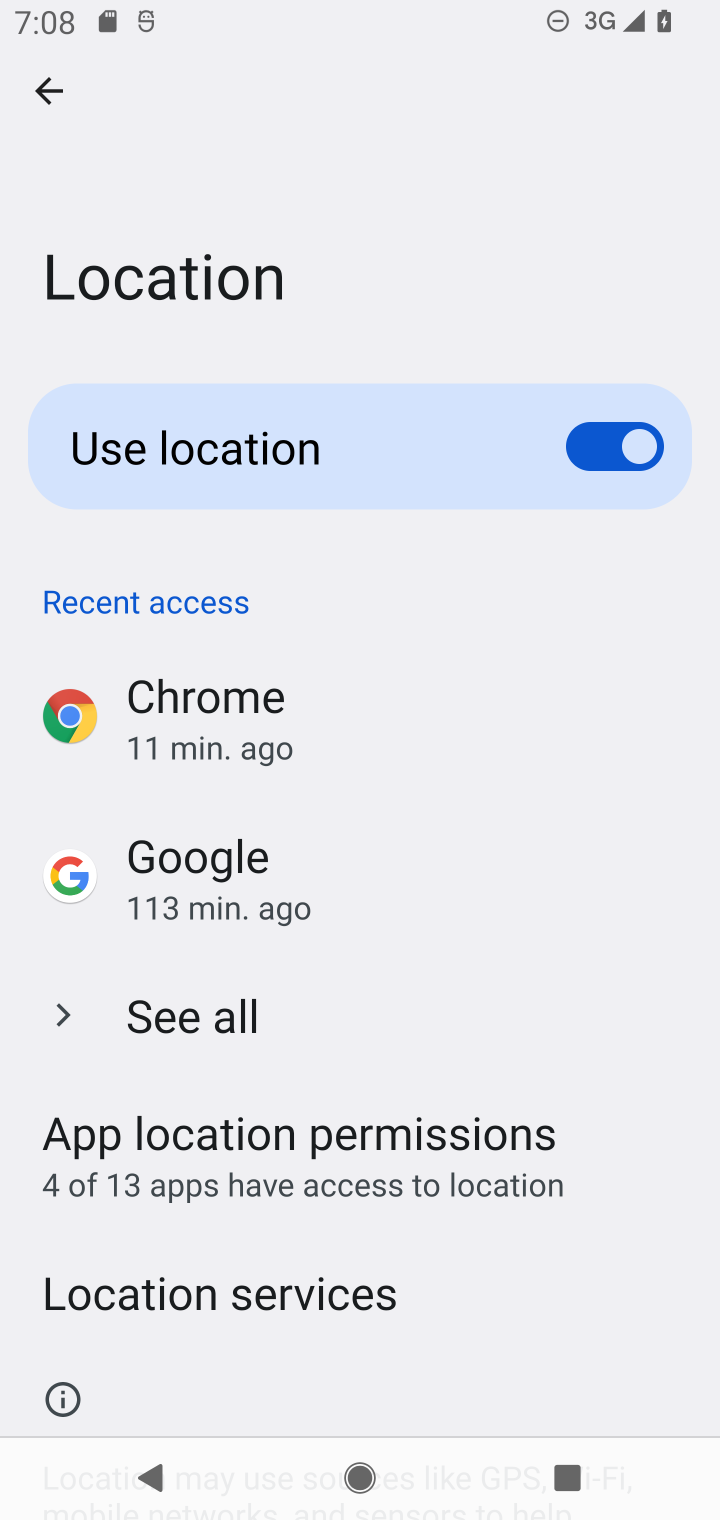
Step 31: drag from (597, 1267) to (563, 853)
Your task to perform on an android device: toggle improve location accuracy Image 32: 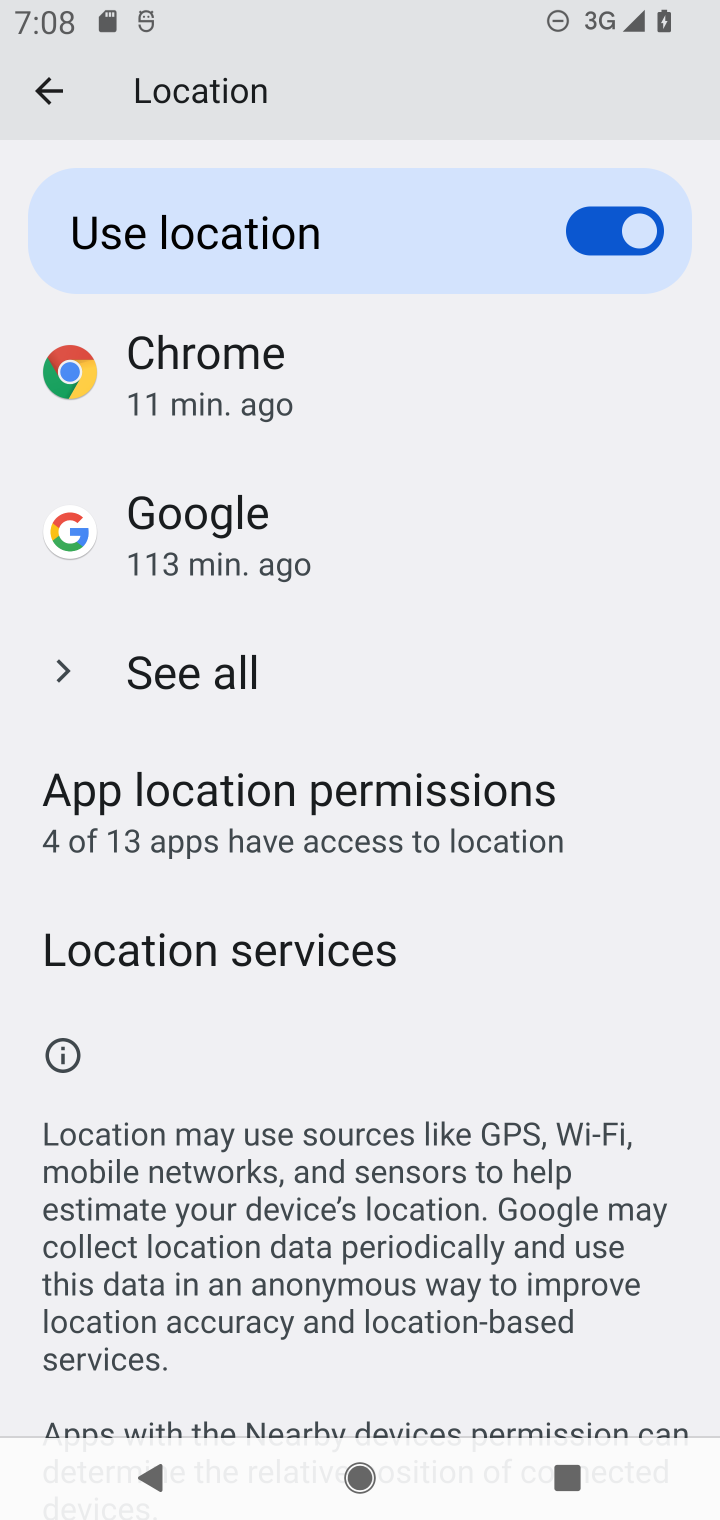
Step 32: drag from (541, 1152) to (539, 734)
Your task to perform on an android device: toggle improve location accuracy Image 33: 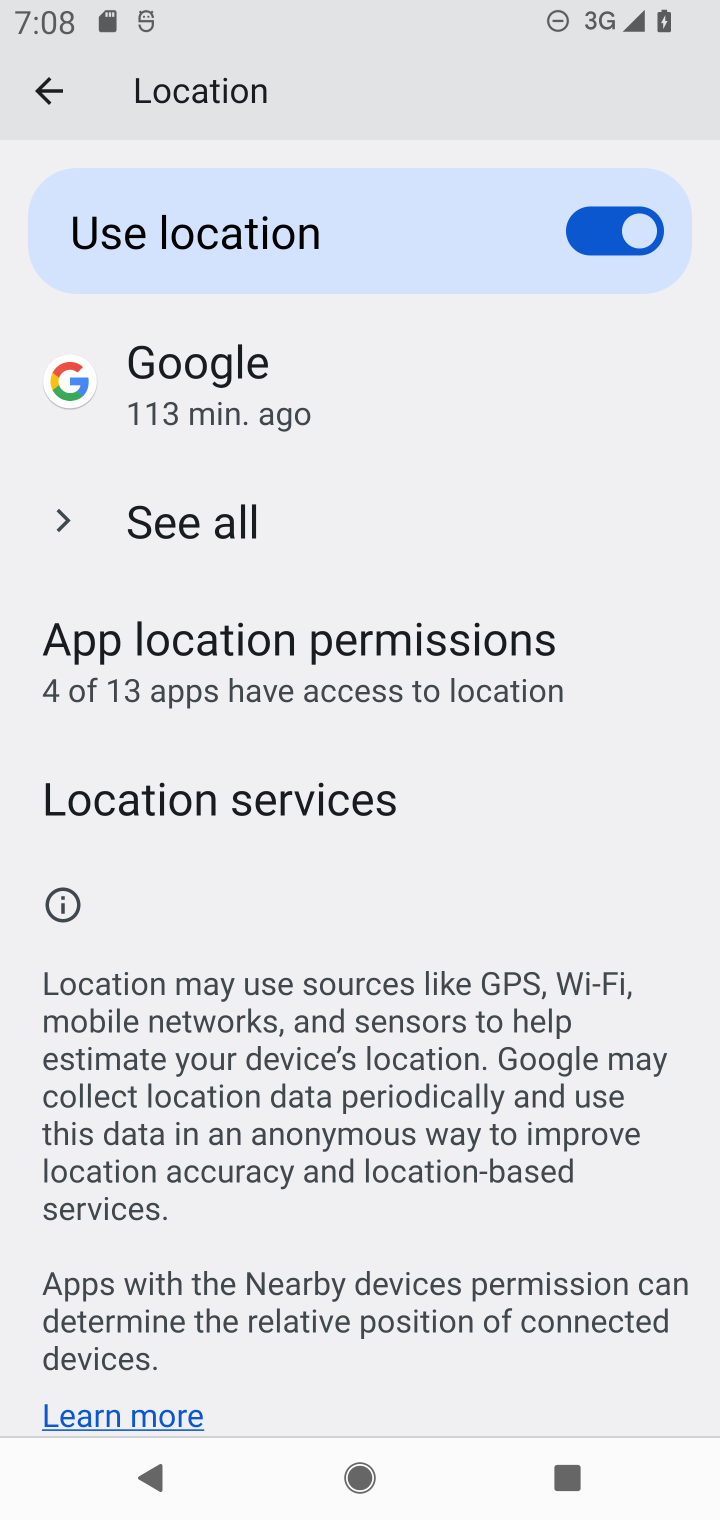
Step 33: drag from (522, 1099) to (512, 744)
Your task to perform on an android device: toggle improve location accuracy Image 34: 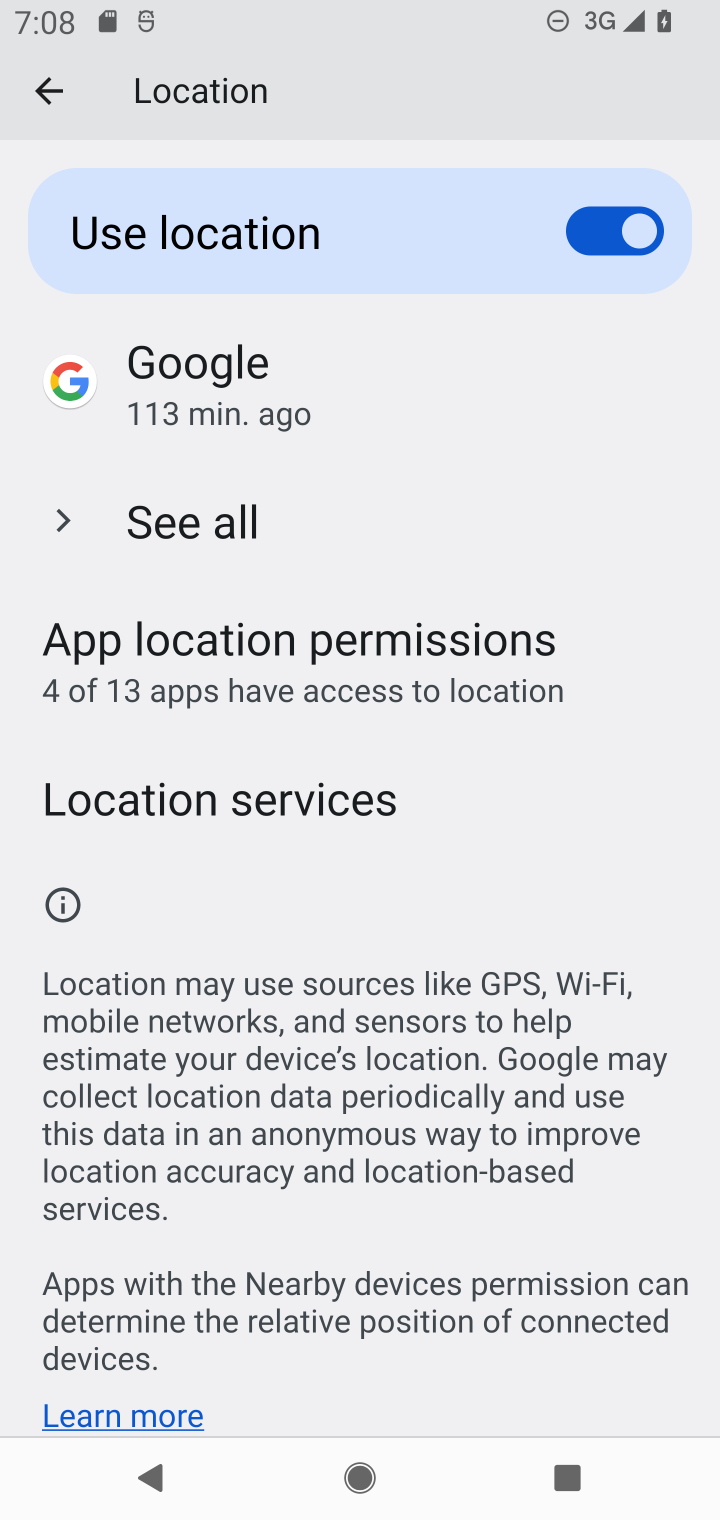
Step 34: drag from (497, 1174) to (495, 722)
Your task to perform on an android device: toggle improve location accuracy Image 35: 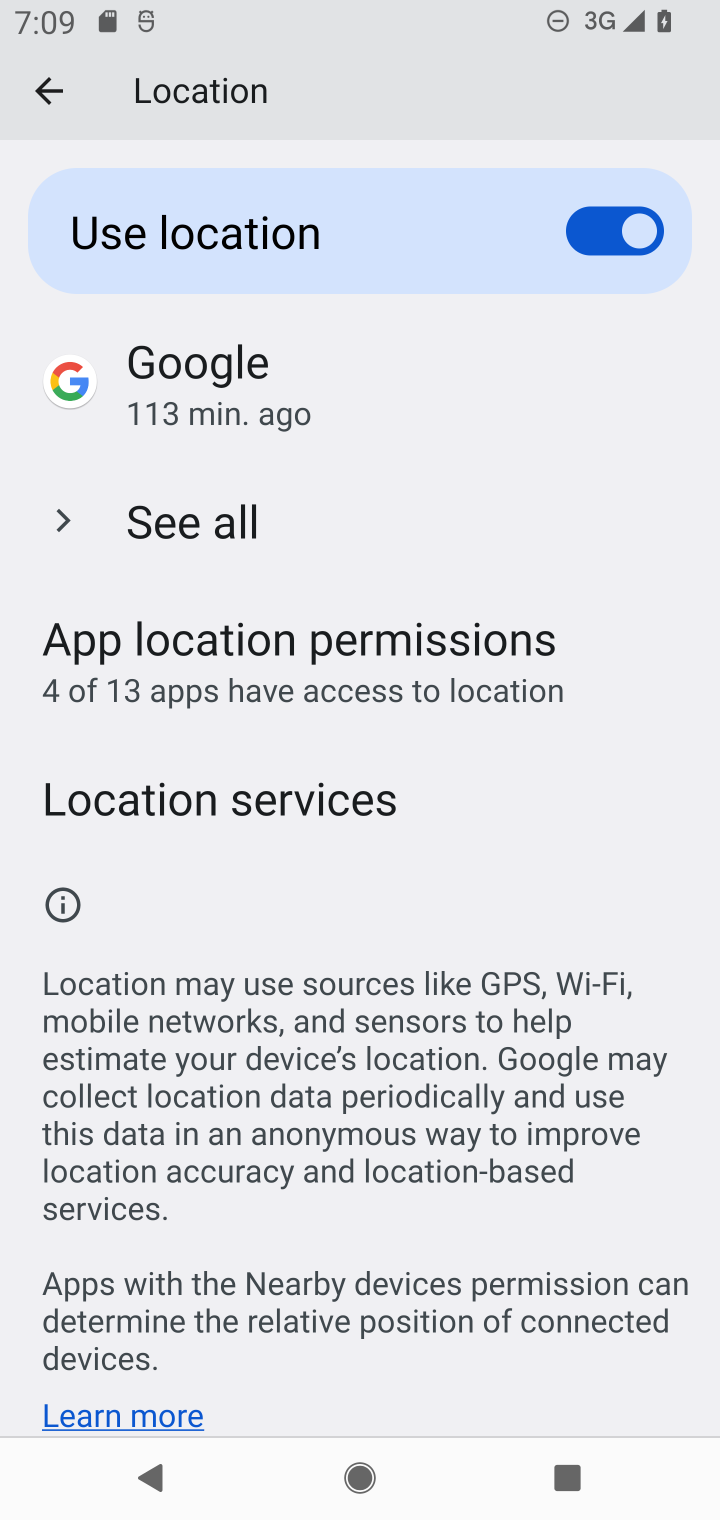
Step 35: drag from (585, 530) to (548, 836)
Your task to perform on an android device: toggle improve location accuracy Image 36: 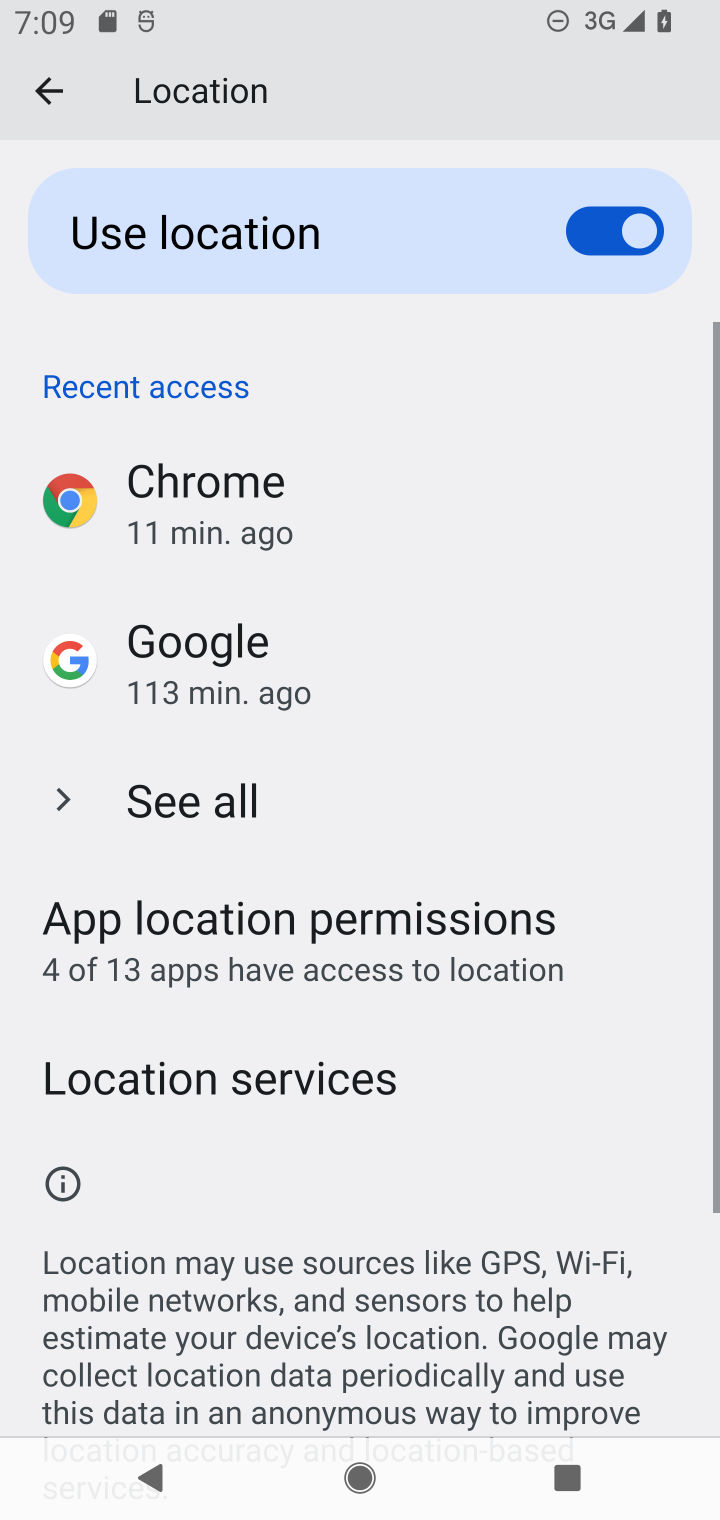
Step 36: drag from (515, 1188) to (515, 762)
Your task to perform on an android device: toggle improve location accuracy Image 37: 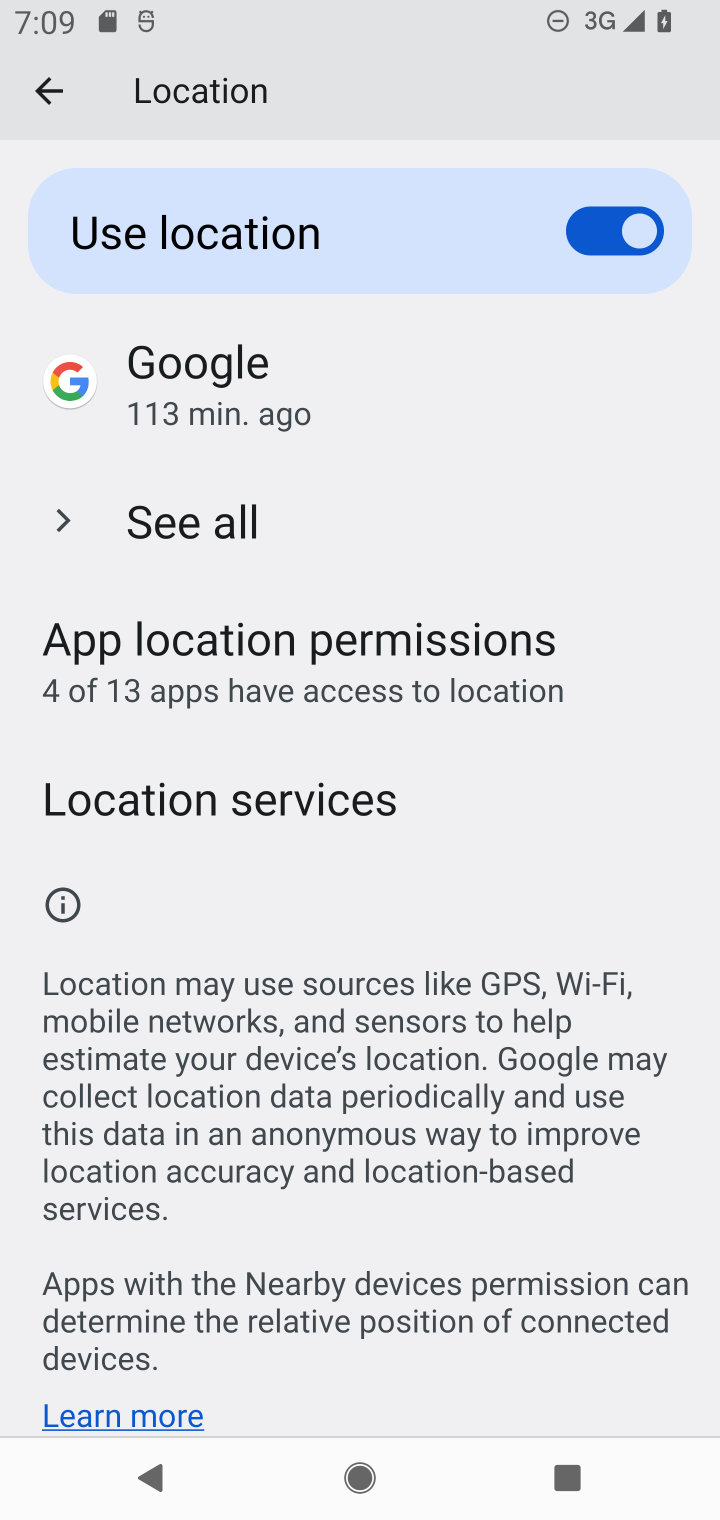
Step 37: click (221, 805)
Your task to perform on an android device: toggle improve location accuracy Image 38: 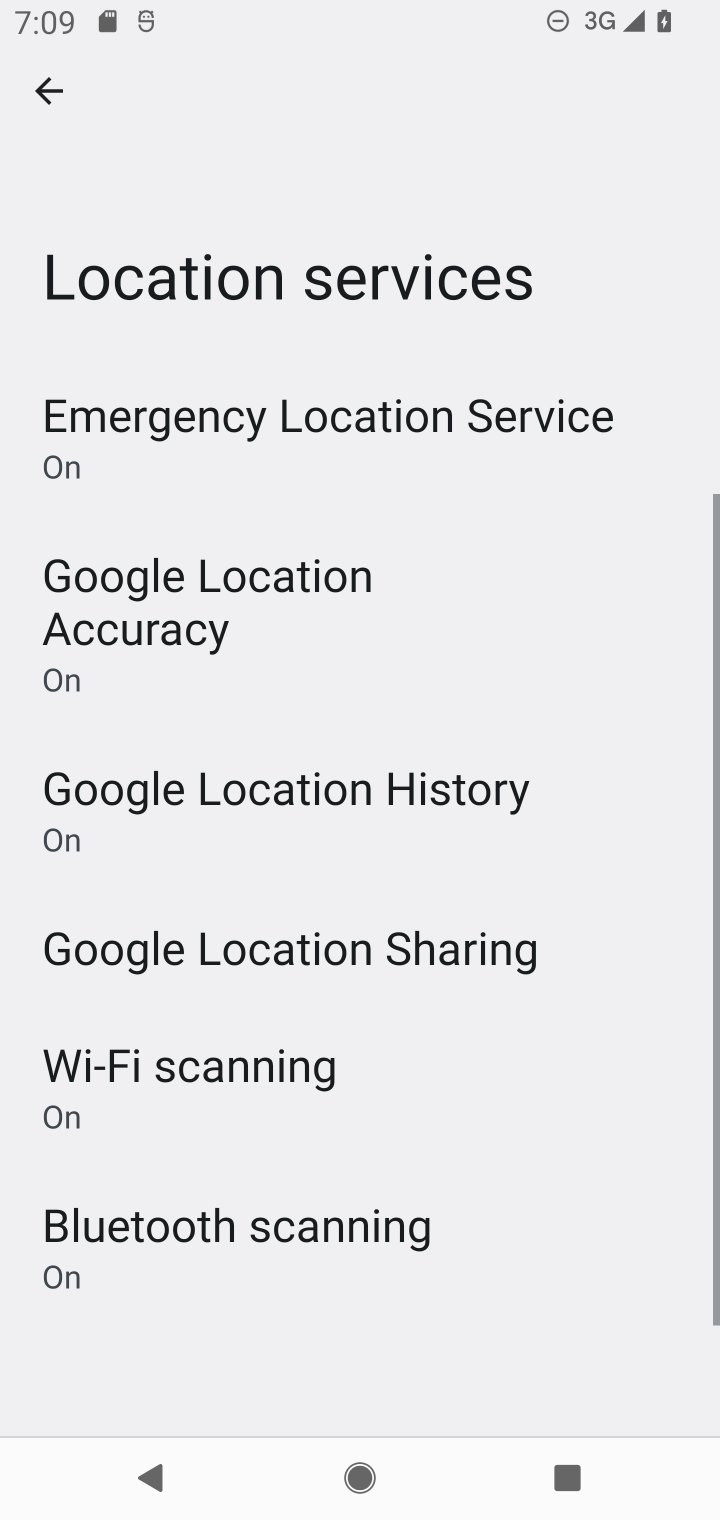
Step 38: drag from (611, 1136) to (613, 666)
Your task to perform on an android device: toggle improve location accuracy Image 39: 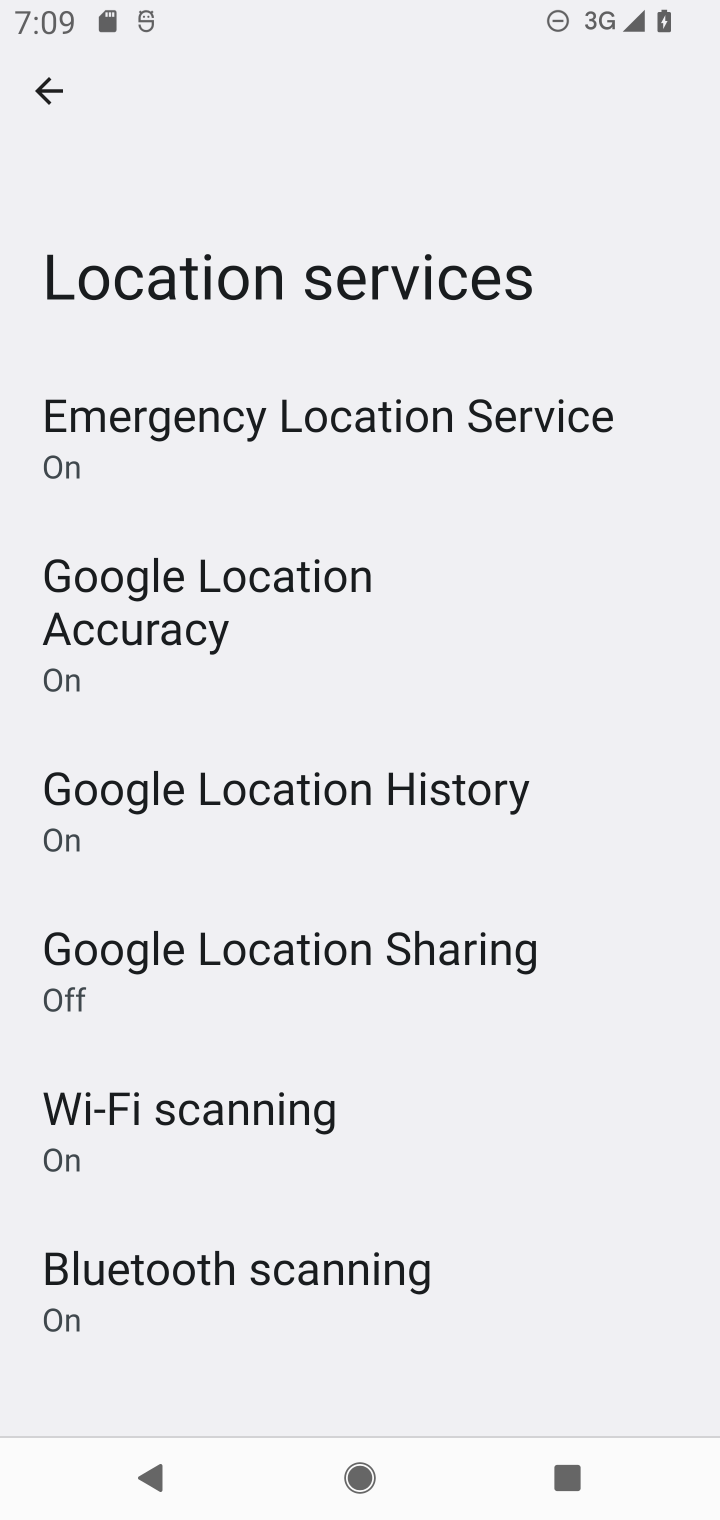
Step 39: drag from (605, 512) to (605, 913)
Your task to perform on an android device: toggle improve location accuracy Image 40: 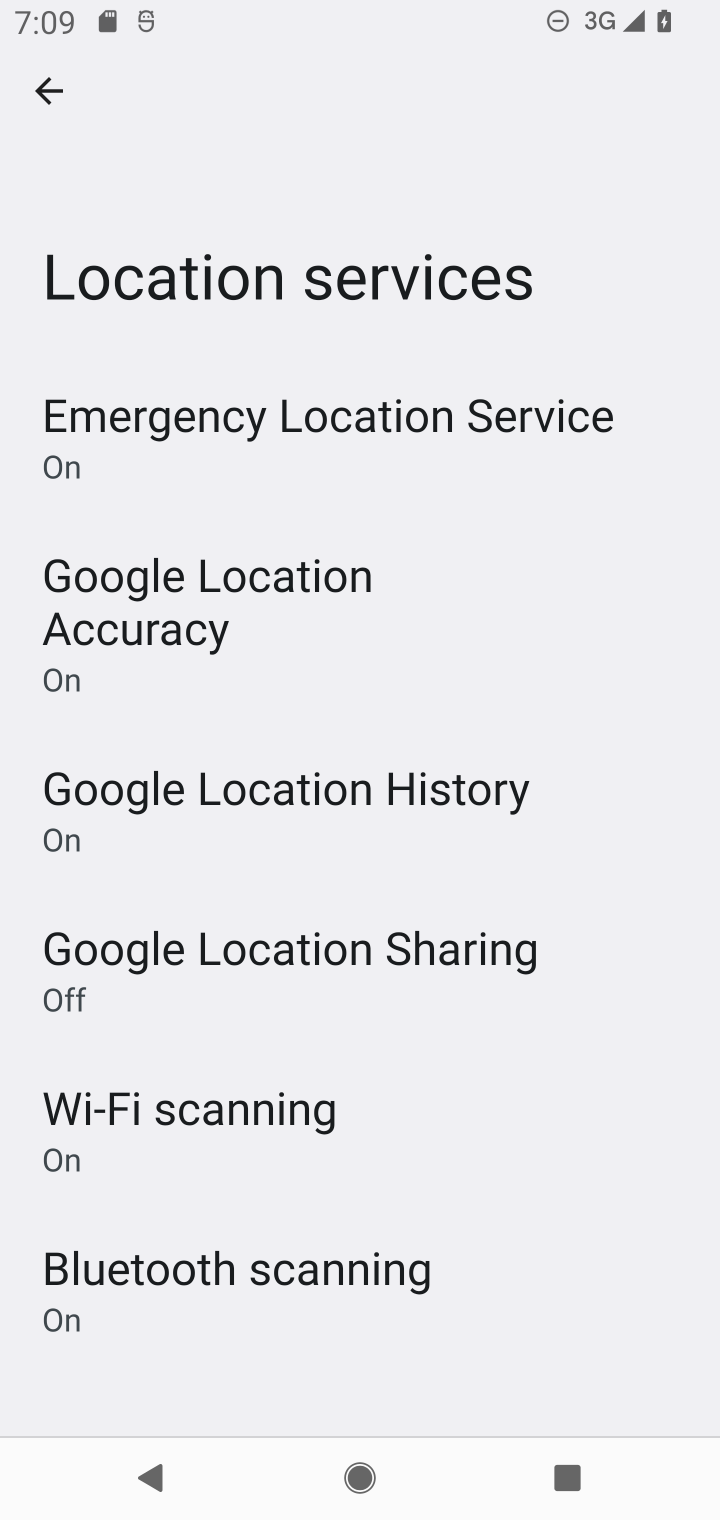
Step 40: click (248, 638)
Your task to perform on an android device: toggle improve location accuracy Image 41: 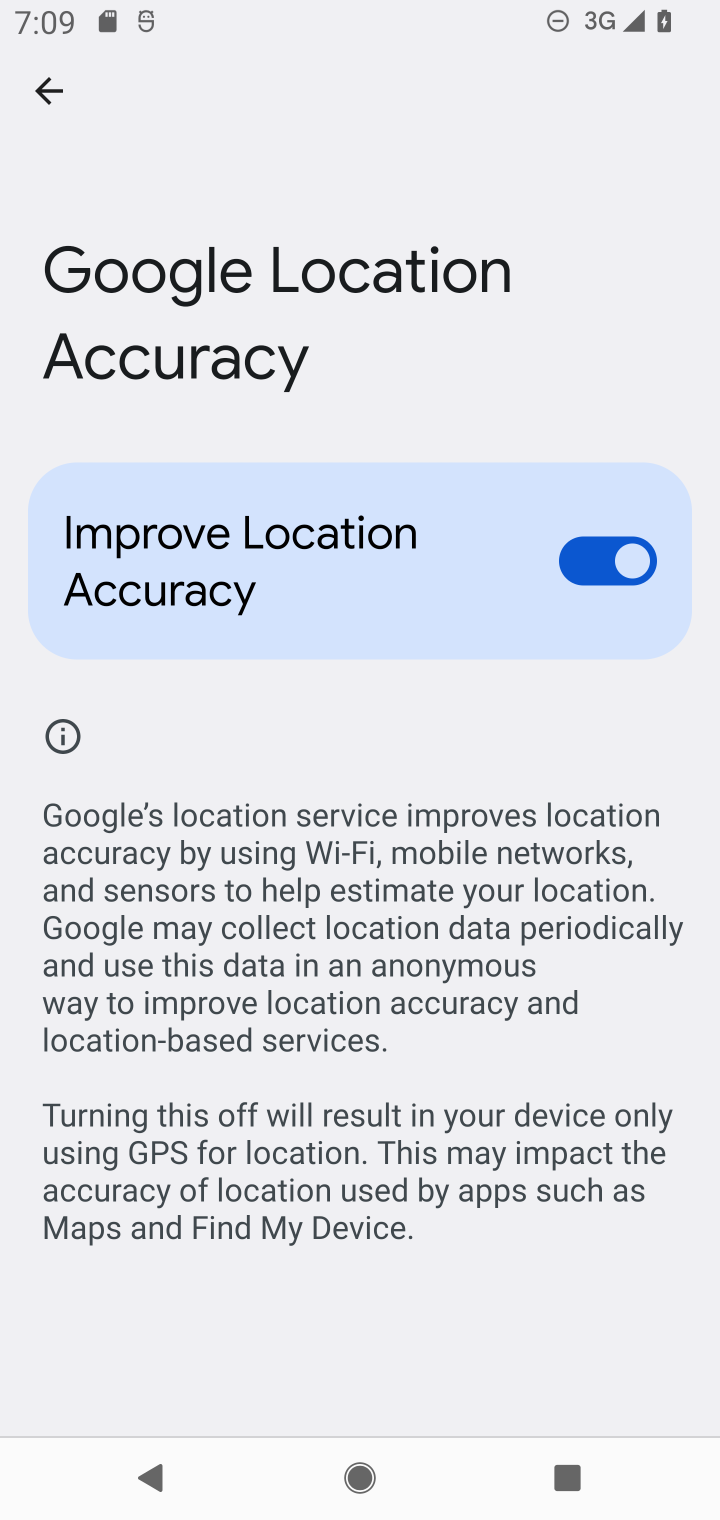
Step 41: task complete